Your task to perform on an android device: Search for the best rated wireless headphones on Amazon. Image 0: 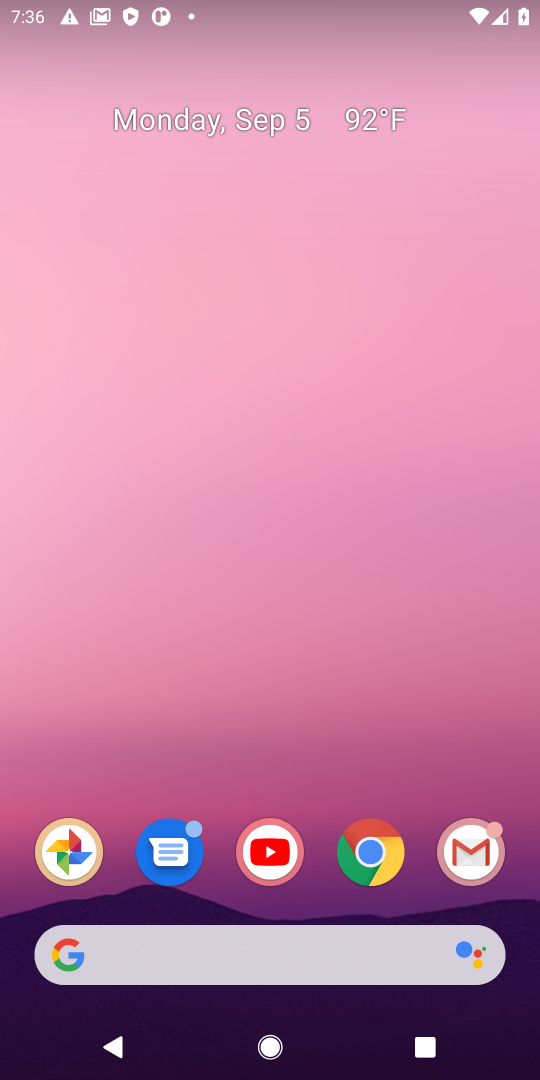
Step 0: click (471, 377)
Your task to perform on an android device: Search for the best rated wireless headphones on Amazon. Image 1: 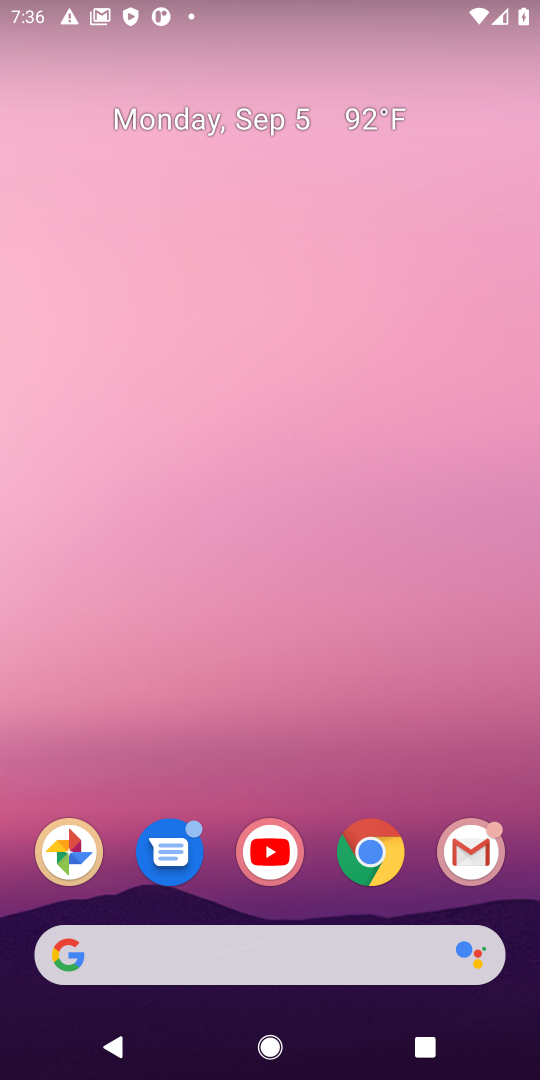
Step 1: click (386, 838)
Your task to perform on an android device: Search for the best rated wireless headphones on Amazon. Image 2: 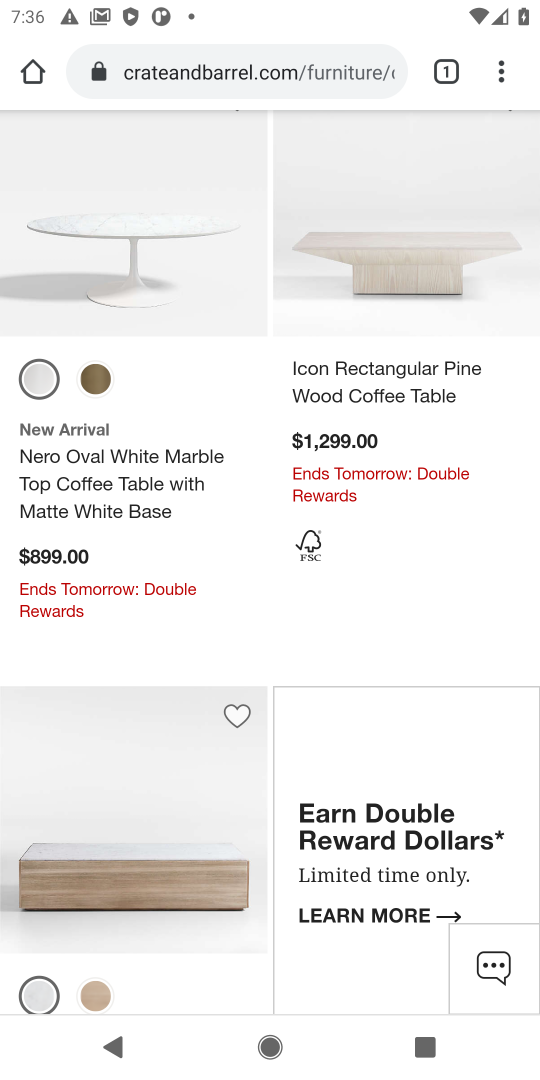
Step 2: click (314, 58)
Your task to perform on an android device: Search for the best rated wireless headphones on Amazon. Image 3: 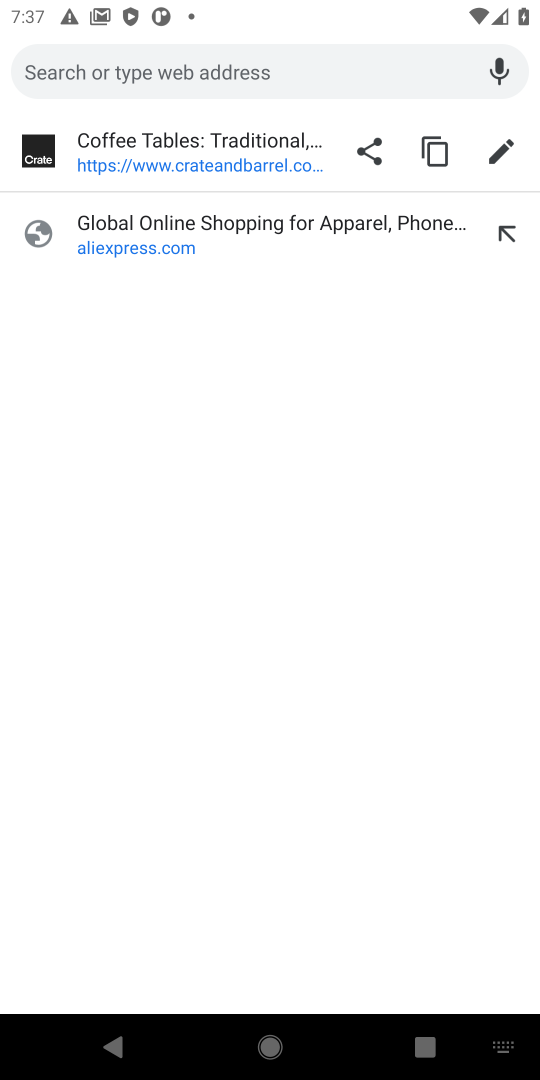
Step 3: type "amazon"
Your task to perform on an android device: Search for the best rated wireless headphones on Amazon. Image 4: 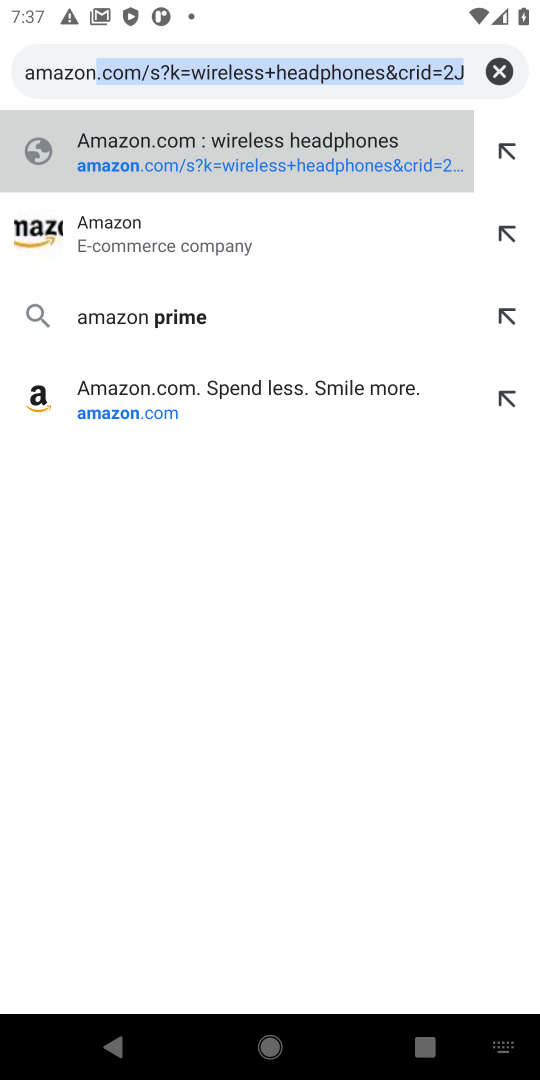
Step 4: press enter
Your task to perform on an android device: Search for the best rated wireless headphones on Amazon. Image 5: 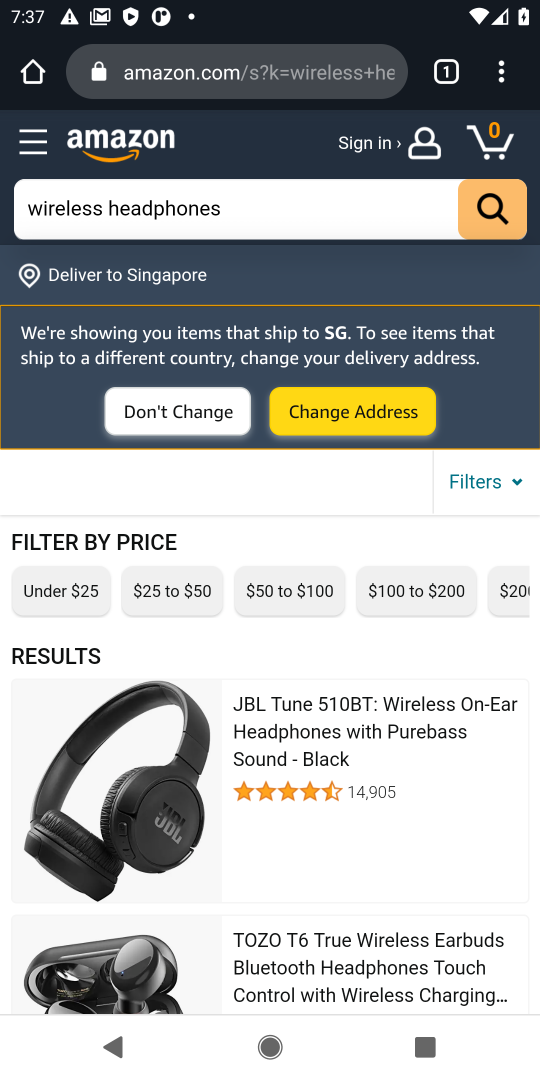
Step 5: click (481, 494)
Your task to perform on an android device: Search for the best rated wireless headphones on Amazon. Image 6: 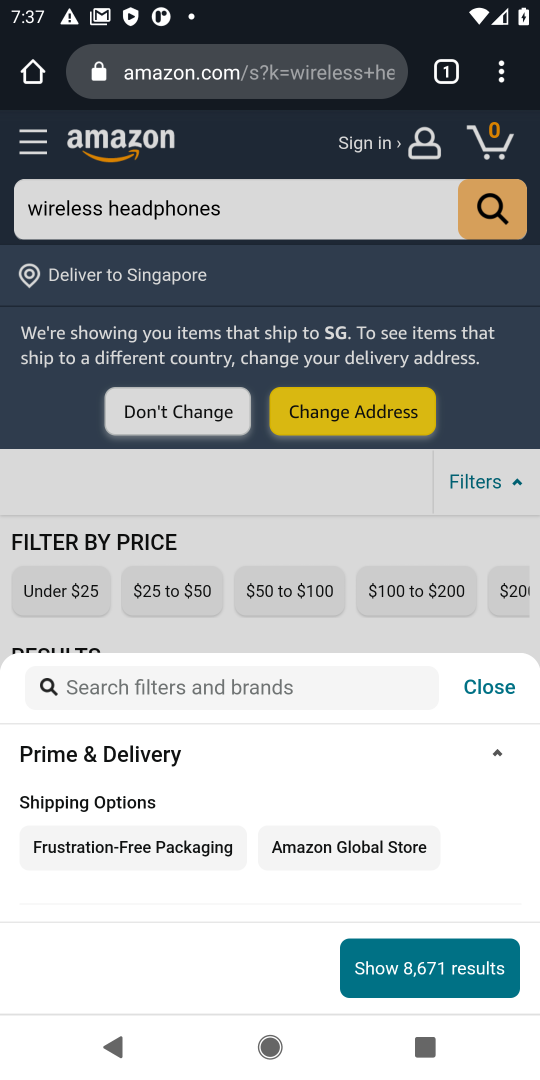
Step 6: drag from (369, 786) to (387, 591)
Your task to perform on an android device: Search for the best rated wireless headphones on Amazon. Image 7: 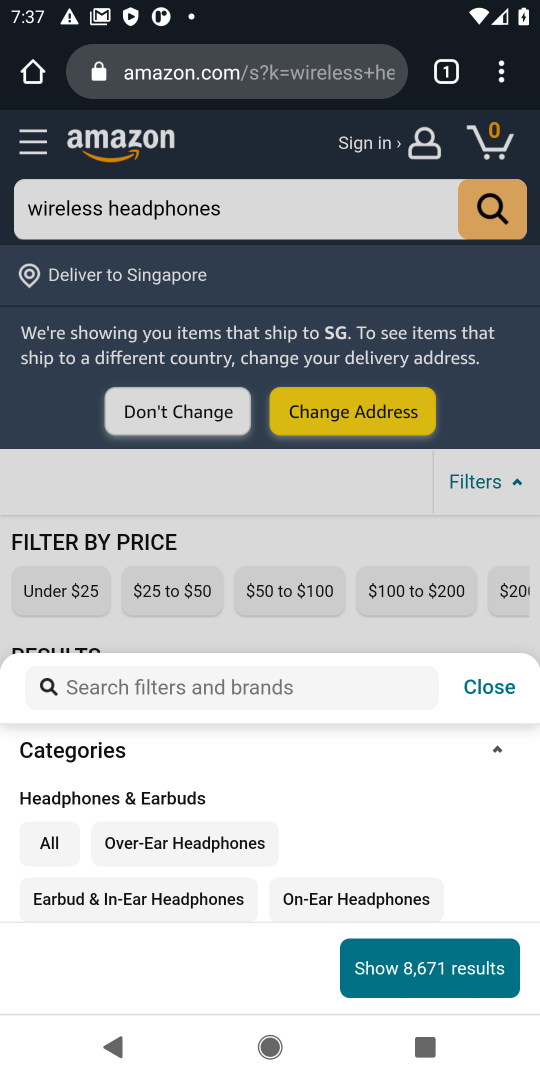
Step 7: drag from (387, 897) to (409, 649)
Your task to perform on an android device: Search for the best rated wireless headphones on Amazon. Image 8: 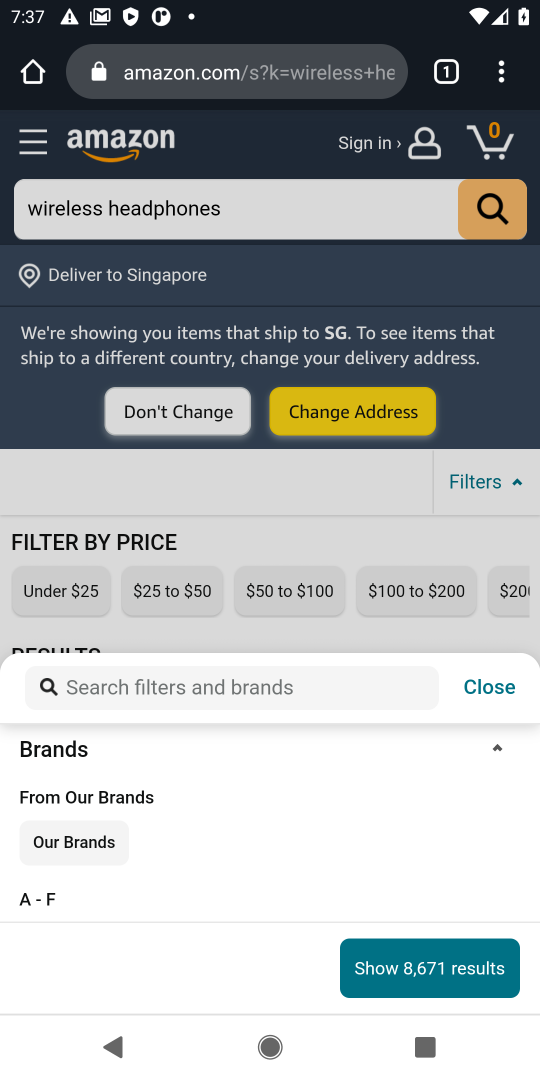
Step 8: drag from (379, 839) to (386, 671)
Your task to perform on an android device: Search for the best rated wireless headphones on Amazon. Image 9: 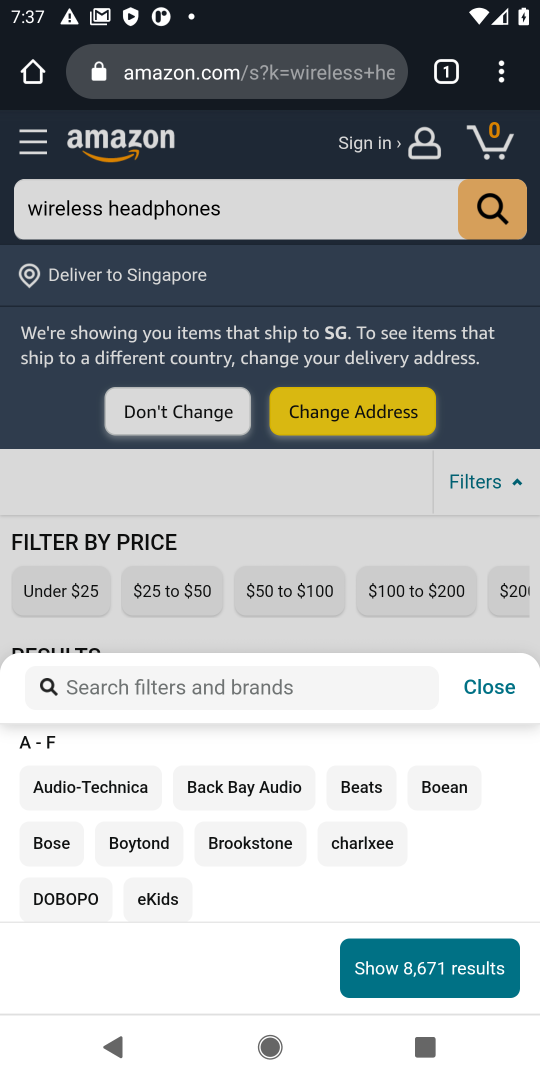
Step 9: drag from (401, 877) to (403, 663)
Your task to perform on an android device: Search for the best rated wireless headphones on Amazon. Image 10: 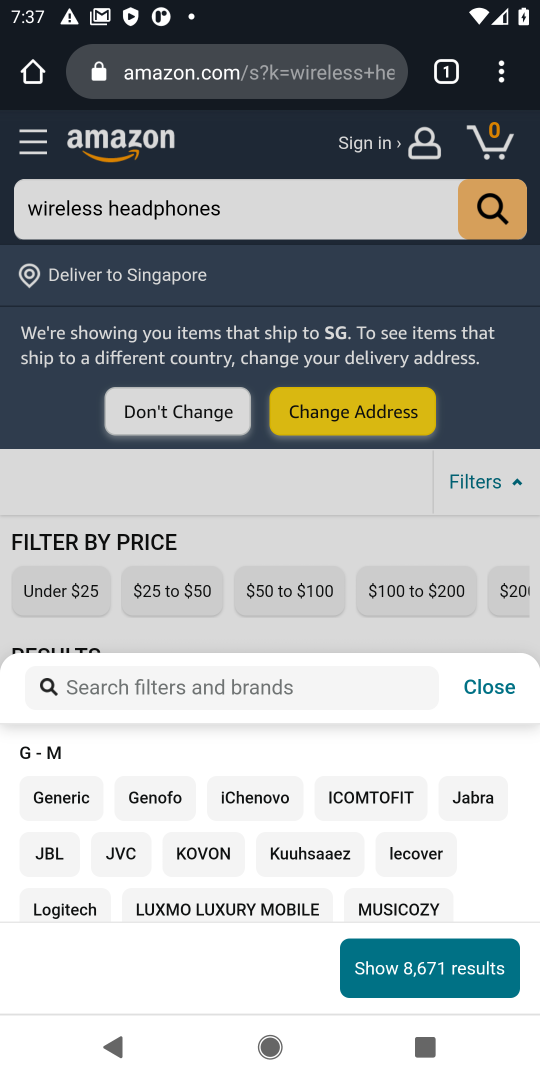
Step 10: drag from (441, 910) to (417, 756)
Your task to perform on an android device: Search for the best rated wireless headphones on Amazon. Image 11: 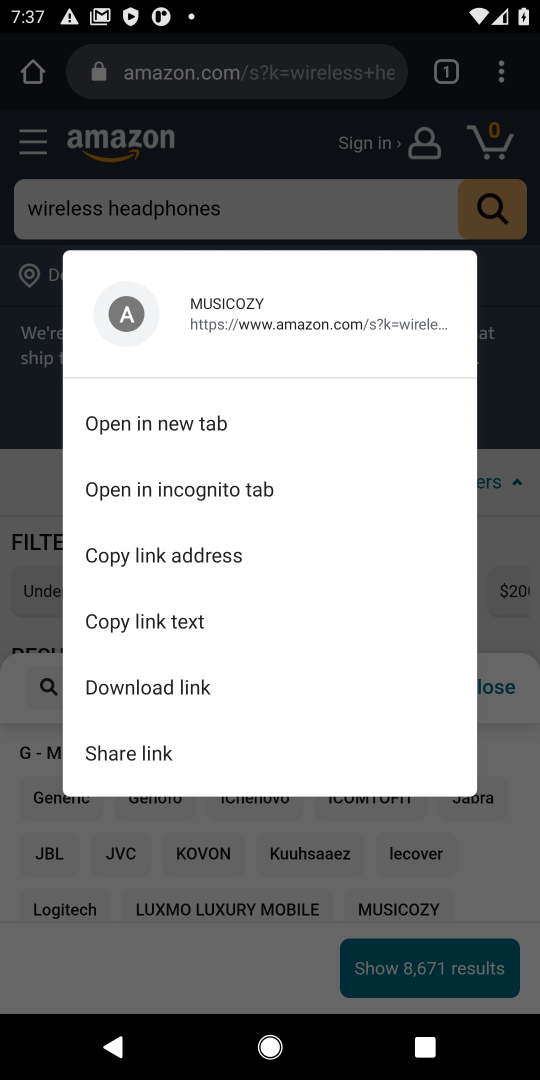
Step 11: click (379, 907)
Your task to perform on an android device: Search for the best rated wireless headphones on Amazon. Image 12: 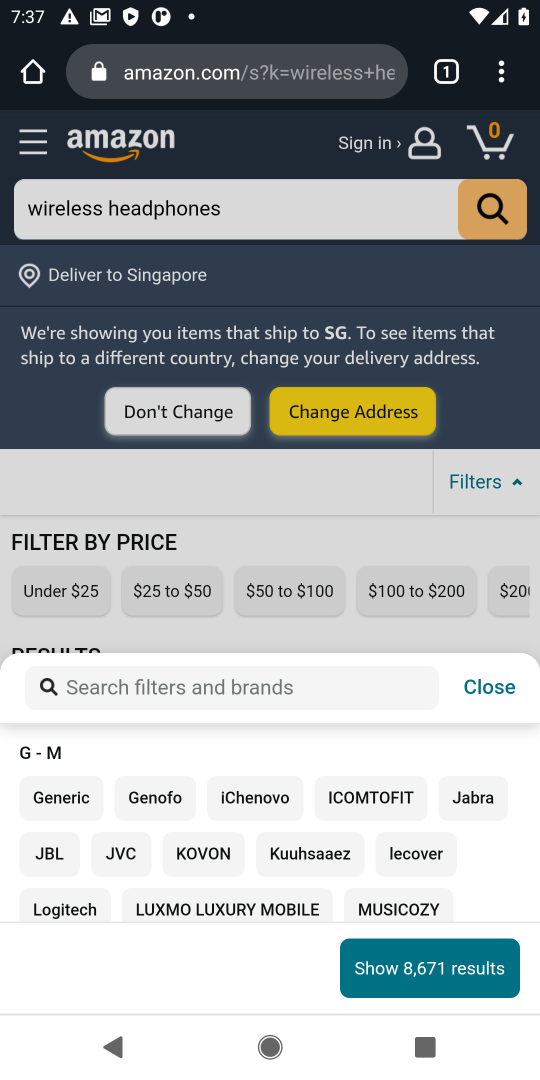
Step 12: drag from (465, 878) to (465, 658)
Your task to perform on an android device: Search for the best rated wireless headphones on Amazon. Image 13: 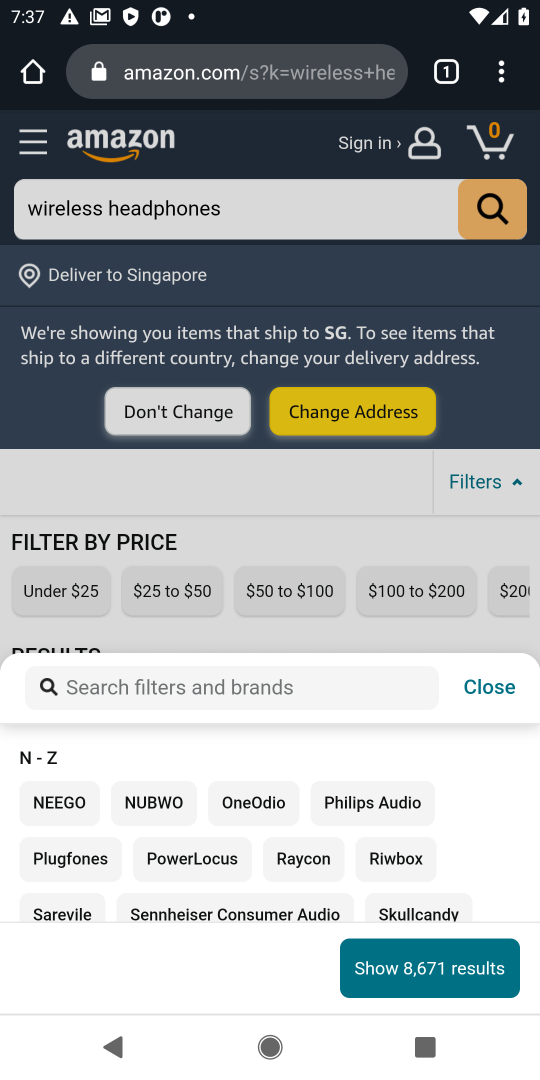
Step 13: drag from (380, 844) to (388, 678)
Your task to perform on an android device: Search for the best rated wireless headphones on Amazon. Image 14: 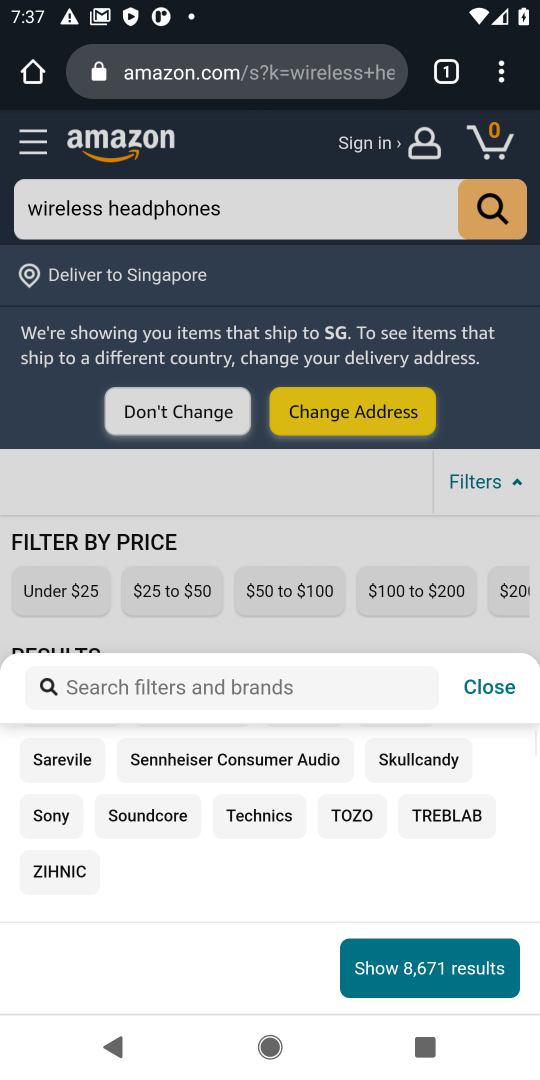
Step 14: drag from (319, 813) to (339, 733)
Your task to perform on an android device: Search for the best rated wireless headphones on Amazon. Image 15: 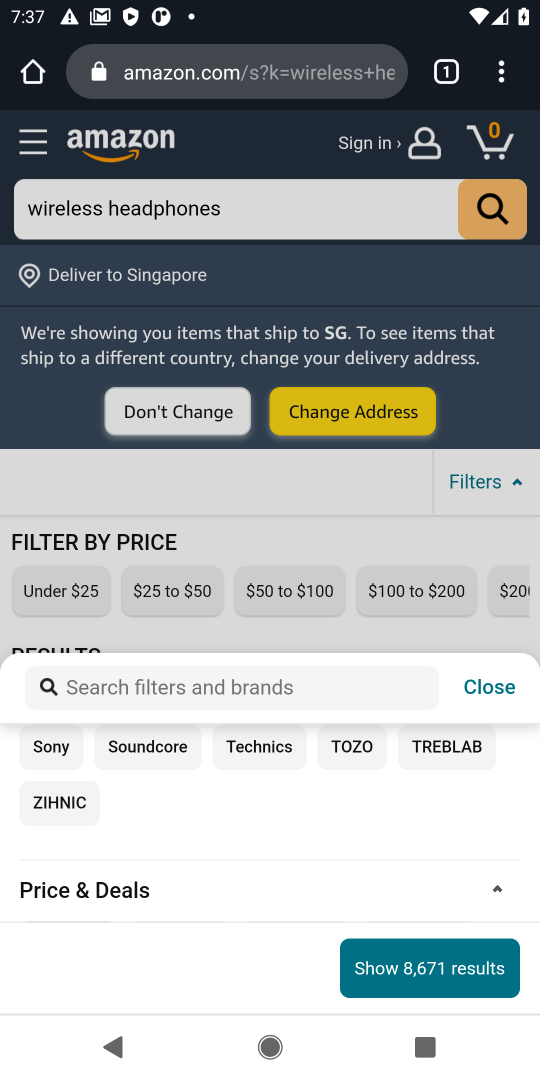
Step 15: drag from (316, 886) to (336, 735)
Your task to perform on an android device: Search for the best rated wireless headphones on Amazon. Image 16: 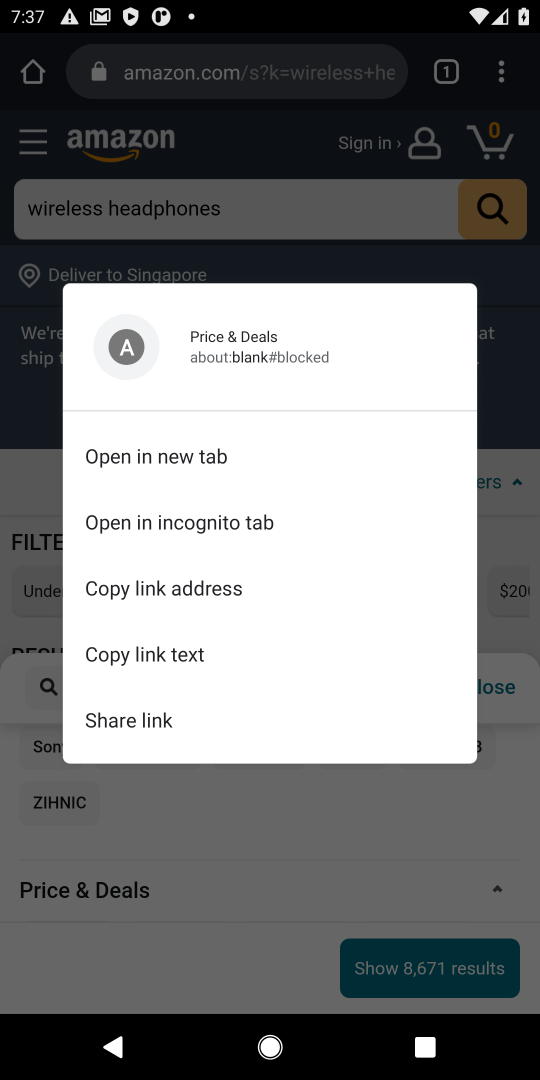
Step 16: click (327, 855)
Your task to perform on an android device: Search for the best rated wireless headphones on Amazon. Image 17: 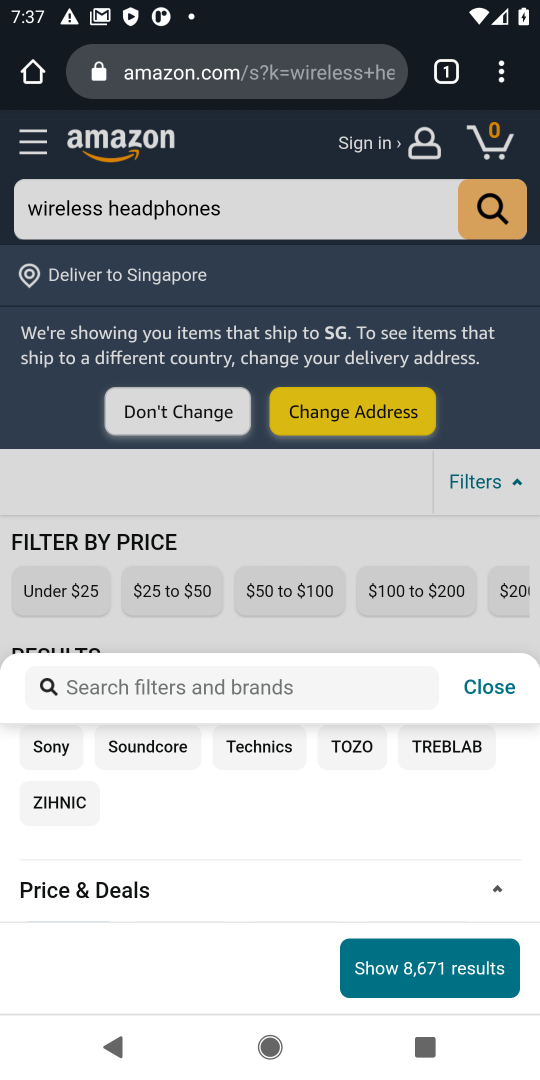
Step 17: drag from (325, 896) to (336, 729)
Your task to perform on an android device: Search for the best rated wireless headphones on Amazon. Image 18: 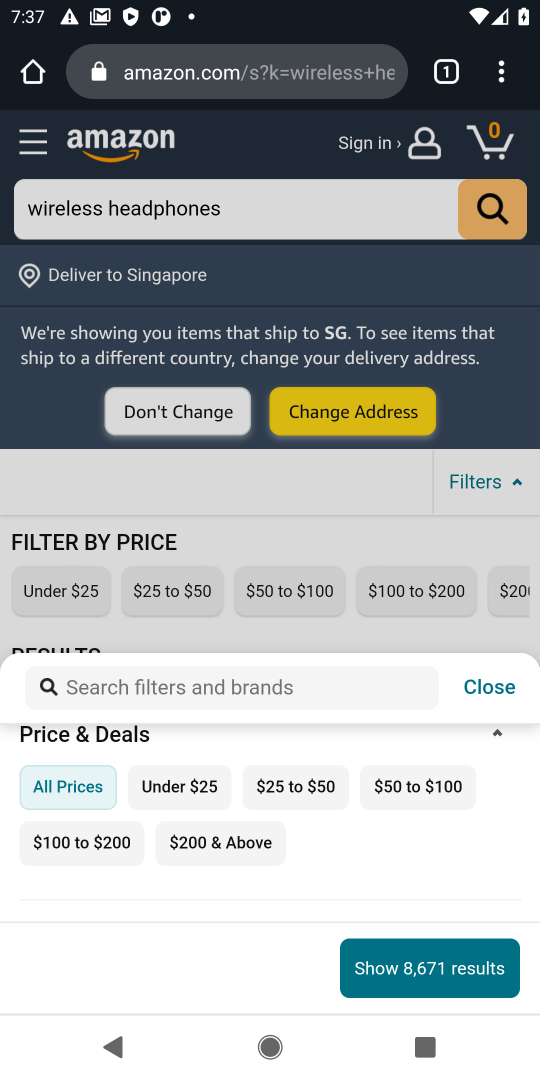
Step 18: drag from (328, 887) to (350, 754)
Your task to perform on an android device: Search for the best rated wireless headphones on Amazon. Image 19: 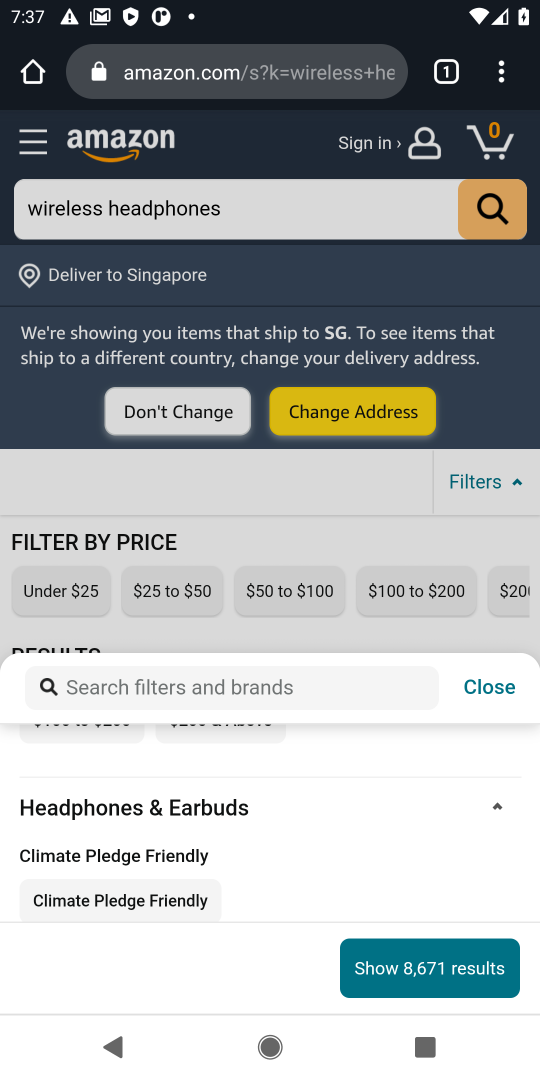
Step 19: drag from (333, 828) to (347, 775)
Your task to perform on an android device: Search for the best rated wireless headphones on Amazon. Image 20: 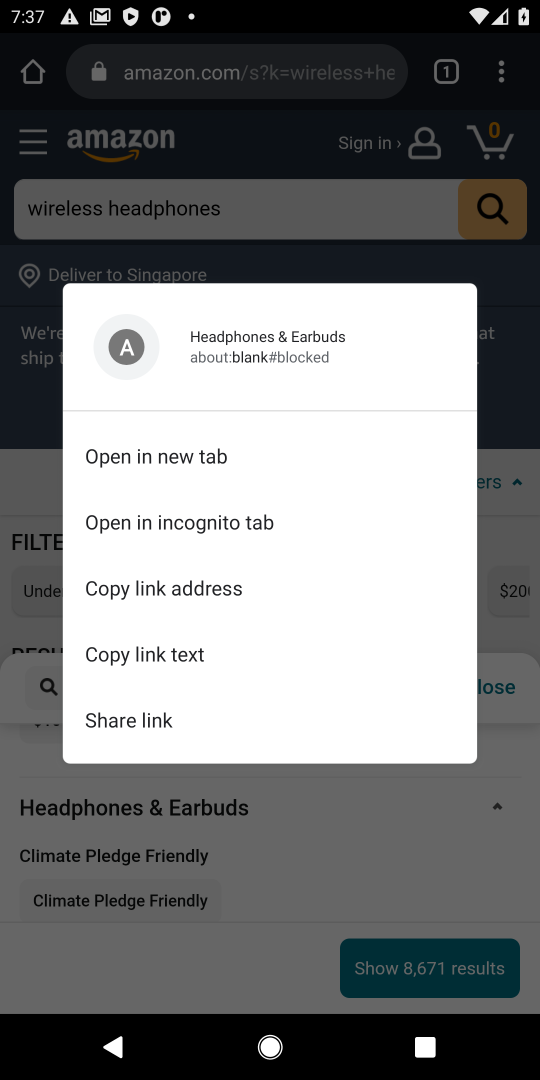
Step 20: click (361, 840)
Your task to perform on an android device: Search for the best rated wireless headphones on Amazon. Image 21: 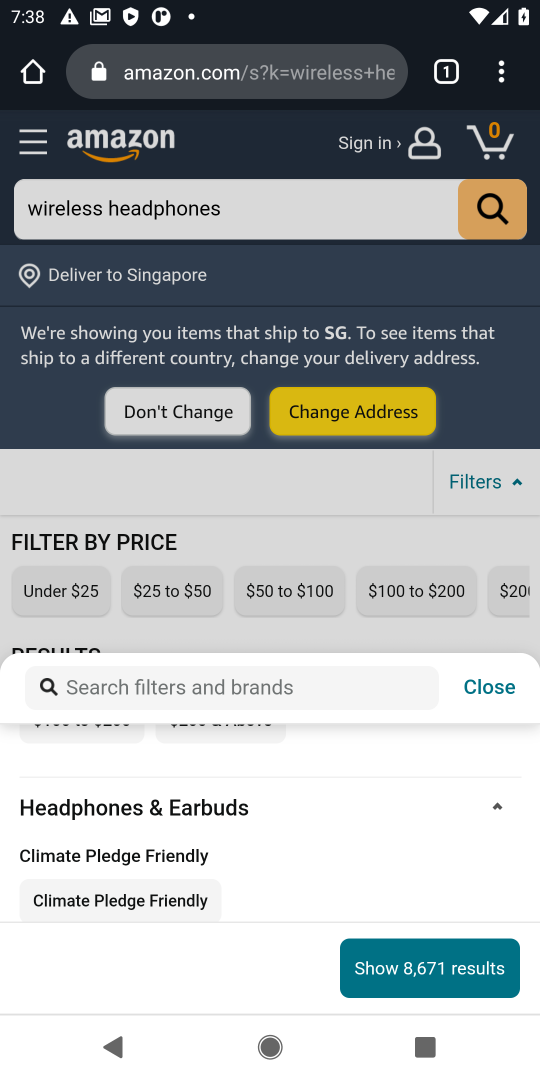
Step 21: click (348, 923)
Your task to perform on an android device: Search for the best rated wireless headphones on Amazon. Image 22: 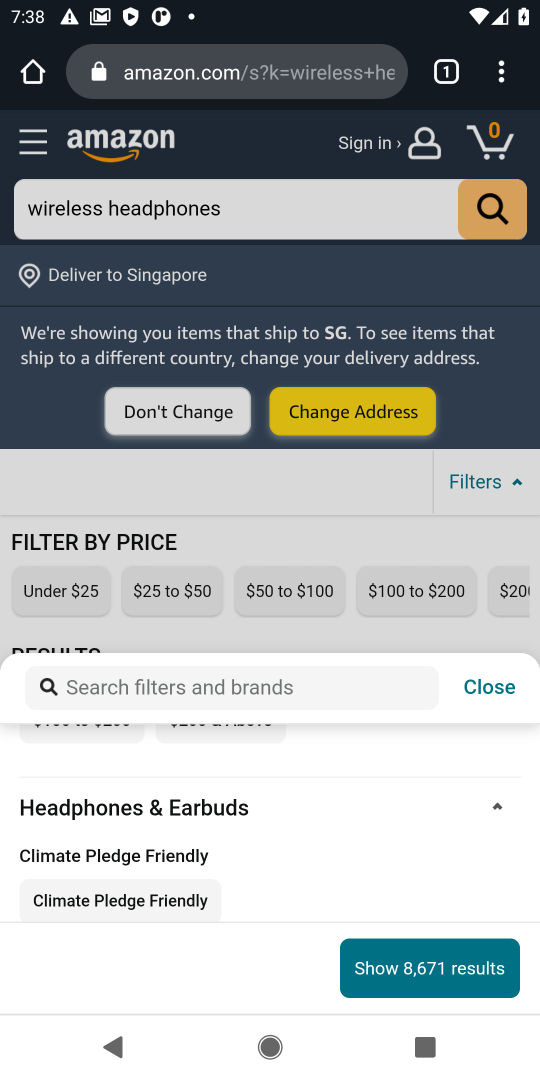
Step 22: drag from (338, 933) to (361, 769)
Your task to perform on an android device: Search for the best rated wireless headphones on Amazon. Image 23: 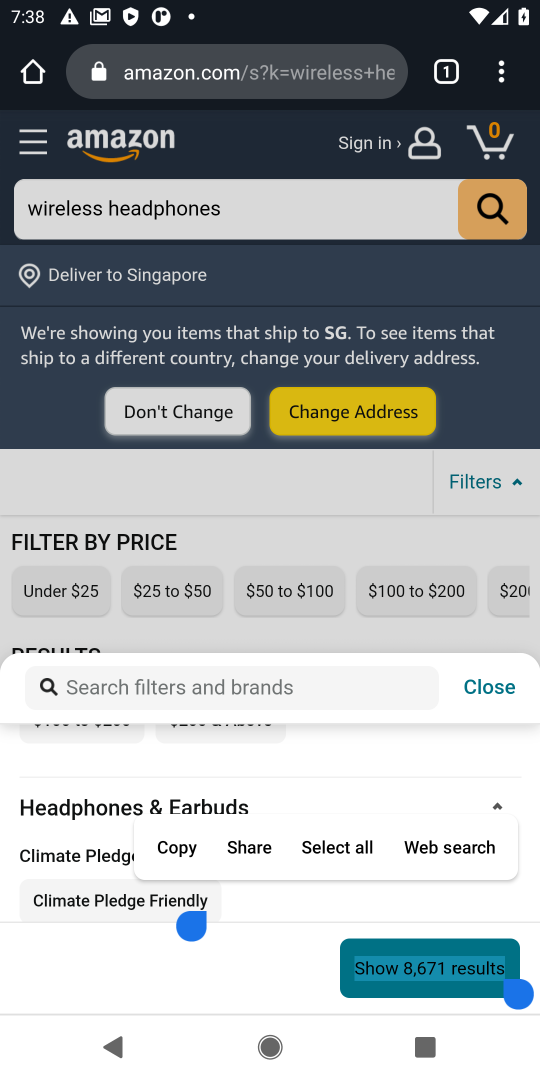
Step 23: click (339, 902)
Your task to perform on an android device: Search for the best rated wireless headphones on Amazon. Image 24: 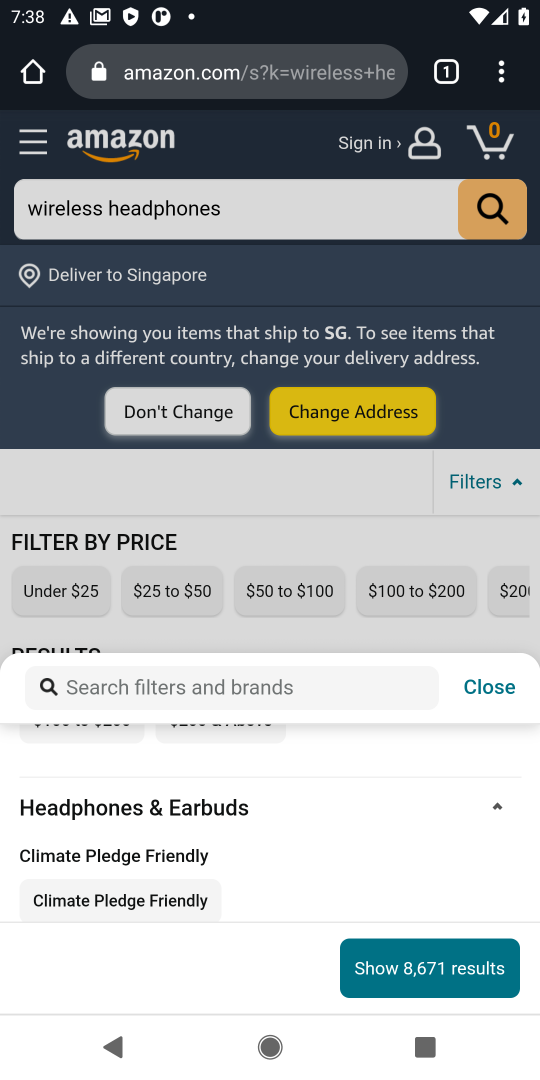
Step 24: drag from (339, 902) to (369, 702)
Your task to perform on an android device: Search for the best rated wireless headphones on Amazon. Image 25: 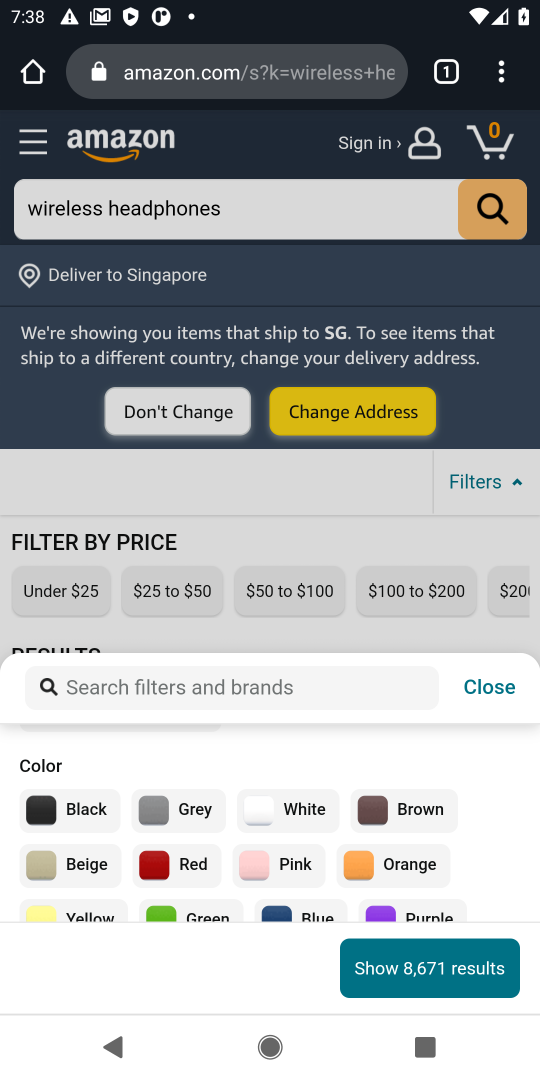
Step 25: drag from (490, 862) to (503, 676)
Your task to perform on an android device: Search for the best rated wireless headphones on Amazon. Image 26: 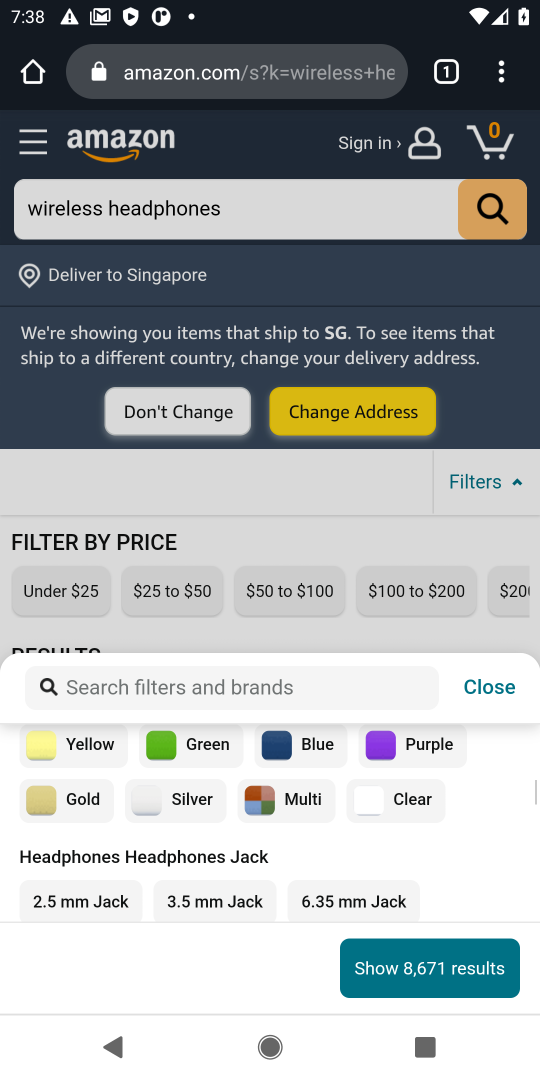
Step 26: drag from (485, 864) to (490, 728)
Your task to perform on an android device: Search for the best rated wireless headphones on Amazon. Image 27: 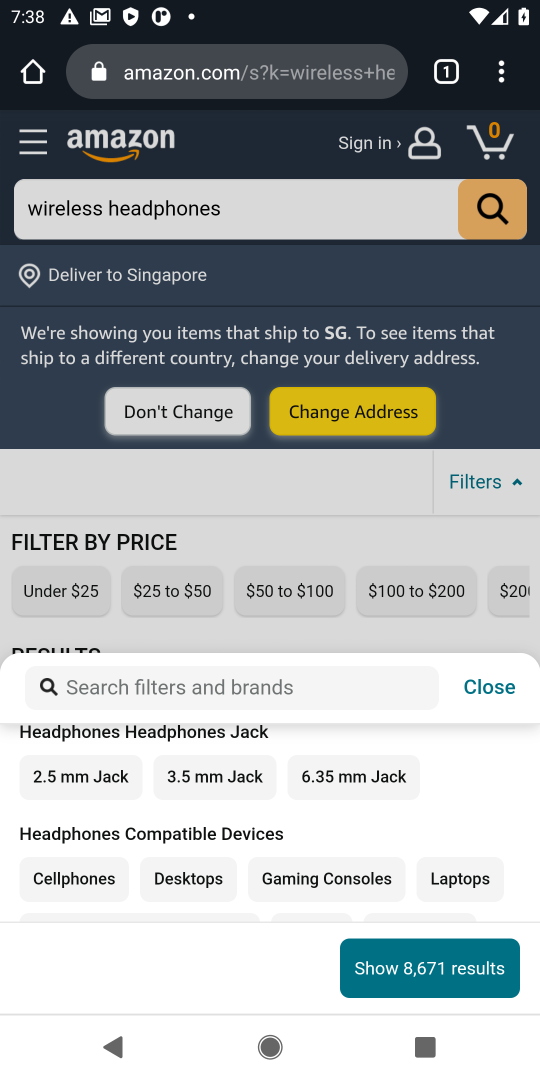
Step 27: drag from (462, 813) to (480, 684)
Your task to perform on an android device: Search for the best rated wireless headphones on Amazon. Image 28: 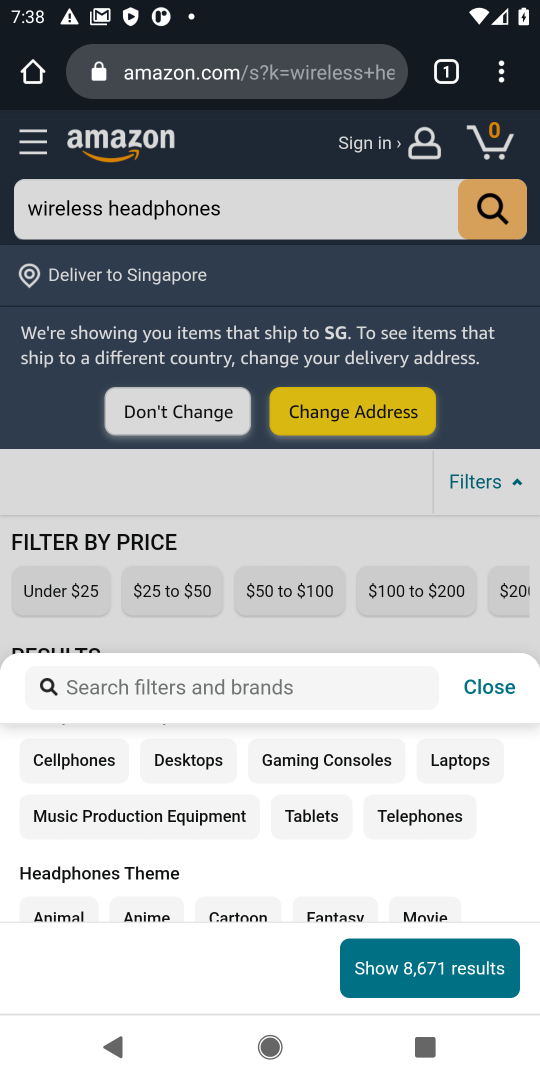
Step 28: drag from (401, 866) to (427, 748)
Your task to perform on an android device: Search for the best rated wireless headphones on Amazon. Image 29: 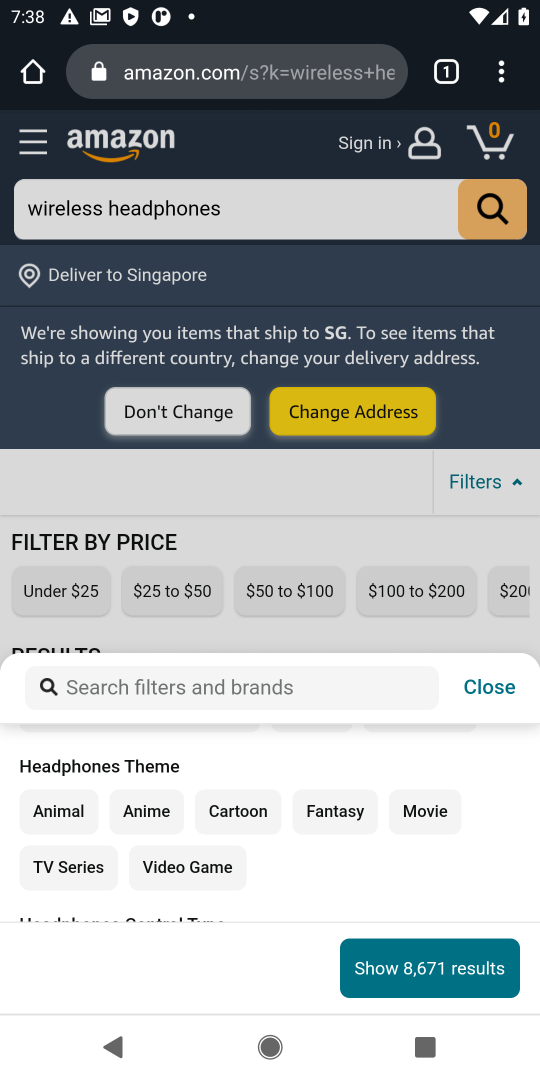
Step 29: drag from (349, 867) to (369, 750)
Your task to perform on an android device: Search for the best rated wireless headphones on Amazon. Image 30: 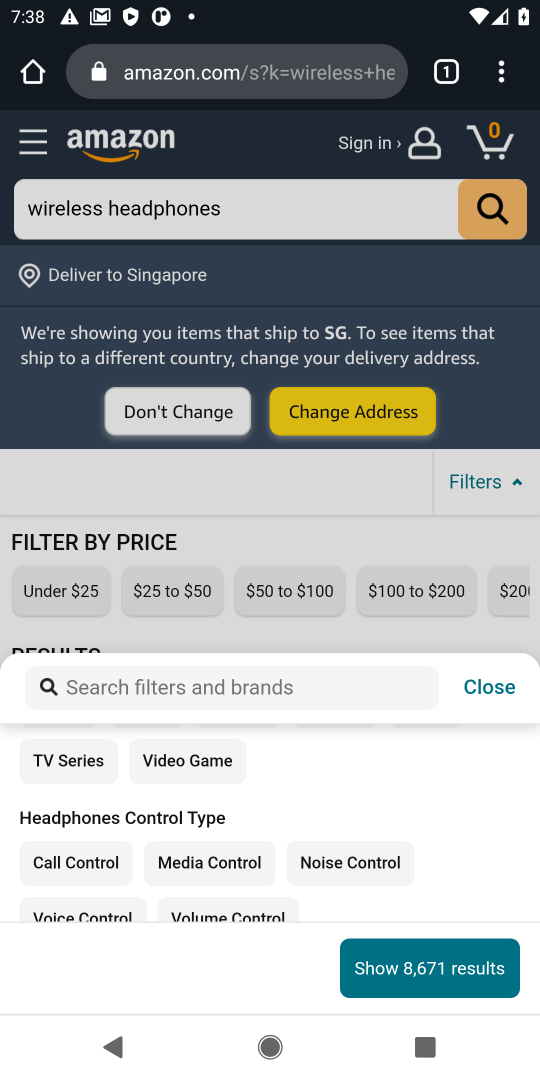
Step 30: drag from (323, 843) to (323, 692)
Your task to perform on an android device: Search for the best rated wireless headphones on Amazon. Image 31: 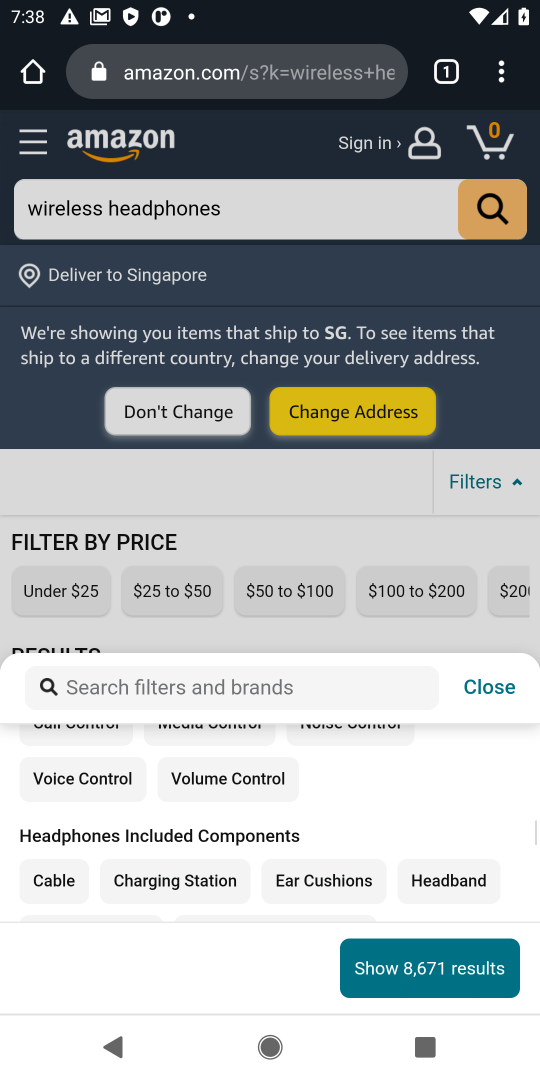
Step 31: drag from (348, 872) to (383, 729)
Your task to perform on an android device: Search for the best rated wireless headphones on Amazon. Image 32: 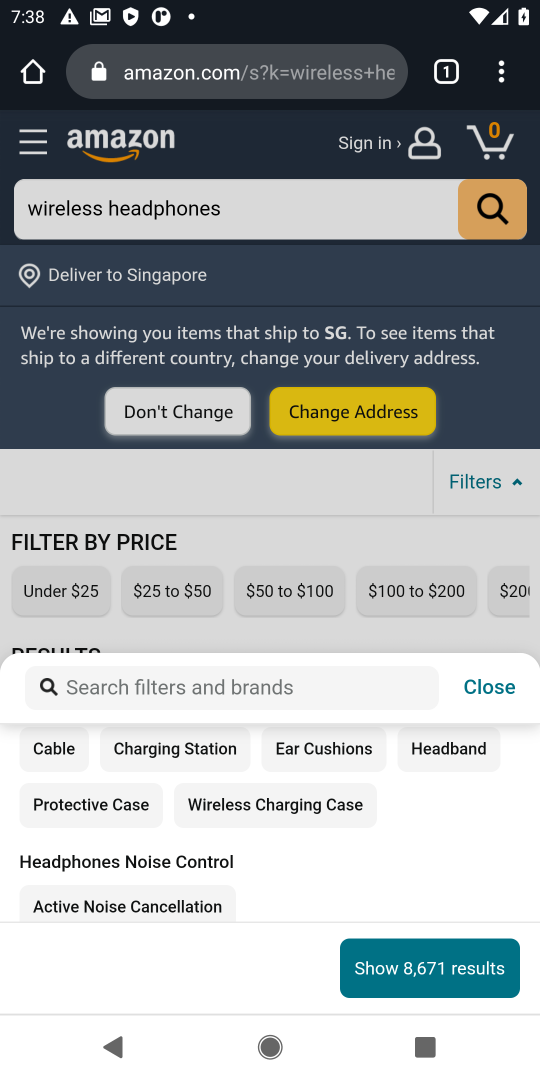
Step 32: drag from (381, 870) to (390, 727)
Your task to perform on an android device: Search for the best rated wireless headphones on Amazon. Image 33: 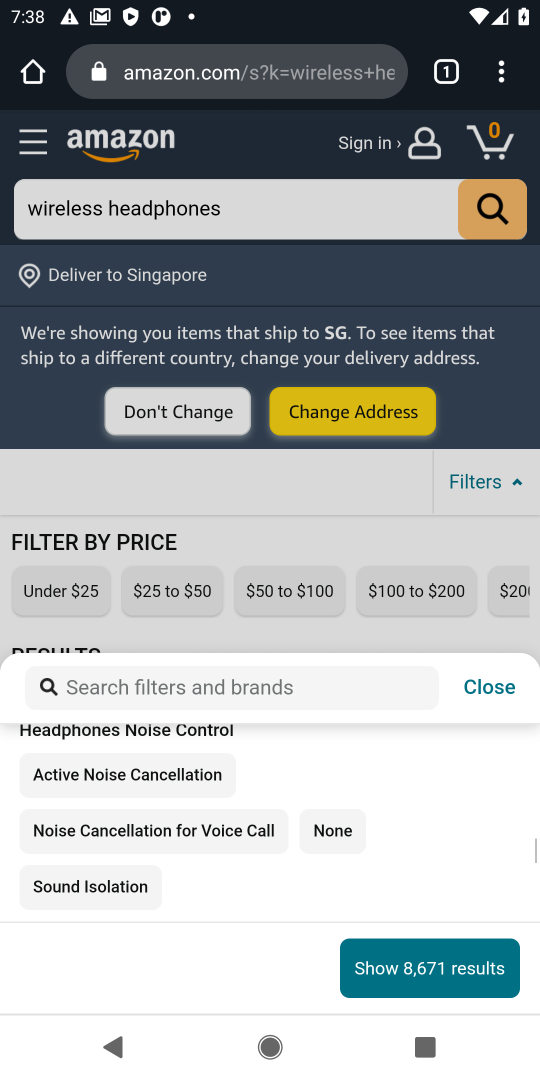
Step 33: click (387, 762)
Your task to perform on an android device: Search for the best rated wireless headphones on Amazon. Image 34: 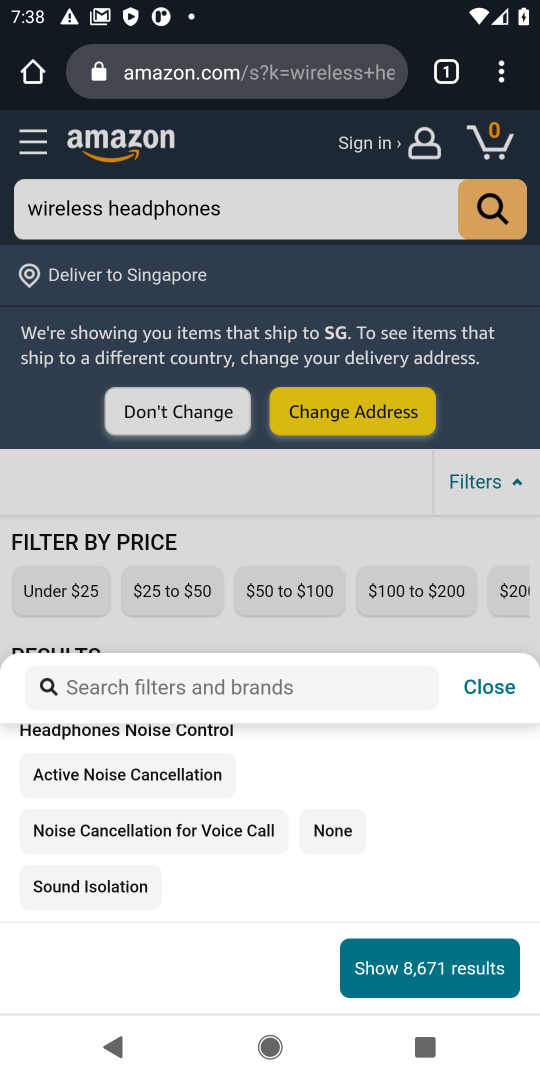
Step 34: drag from (403, 879) to (403, 759)
Your task to perform on an android device: Search for the best rated wireless headphones on Amazon. Image 35: 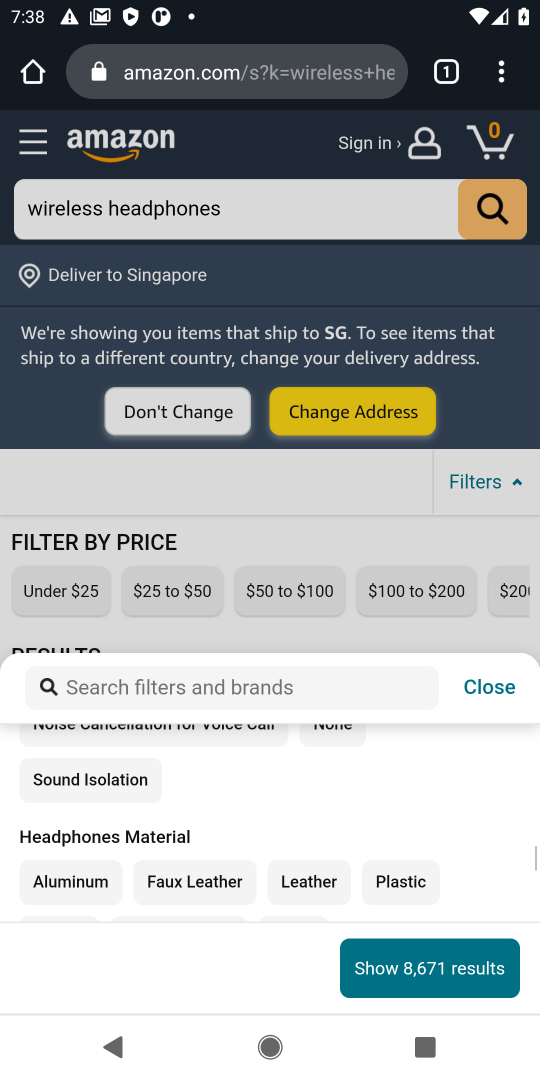
Step 35: drag from (392, 825) to (399, 722)
Your task to perform on an android device: Search for the best rated wireless headphones on Amazon. Image 36: 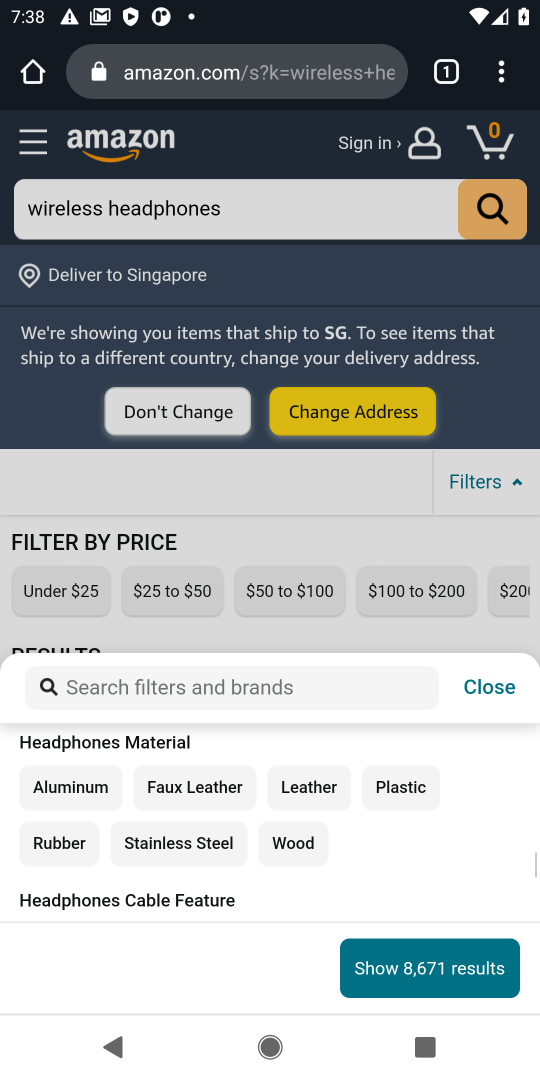
Step 36: drag from (409, 895) to (414, 788)
Your task to perform on an android device: Search for the best rated wireless headphones on Amazon. Image 37: 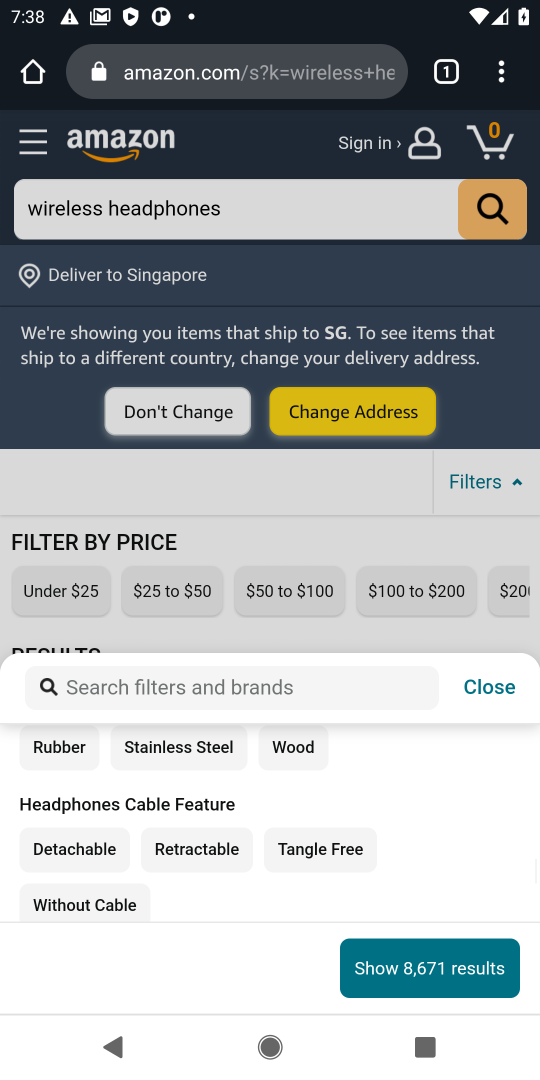
Step 37: drag from (408, 884) to (417, 725)
Your task to perform on an android device: Search for the best rated wireless headphones on Amazon. Image 38: 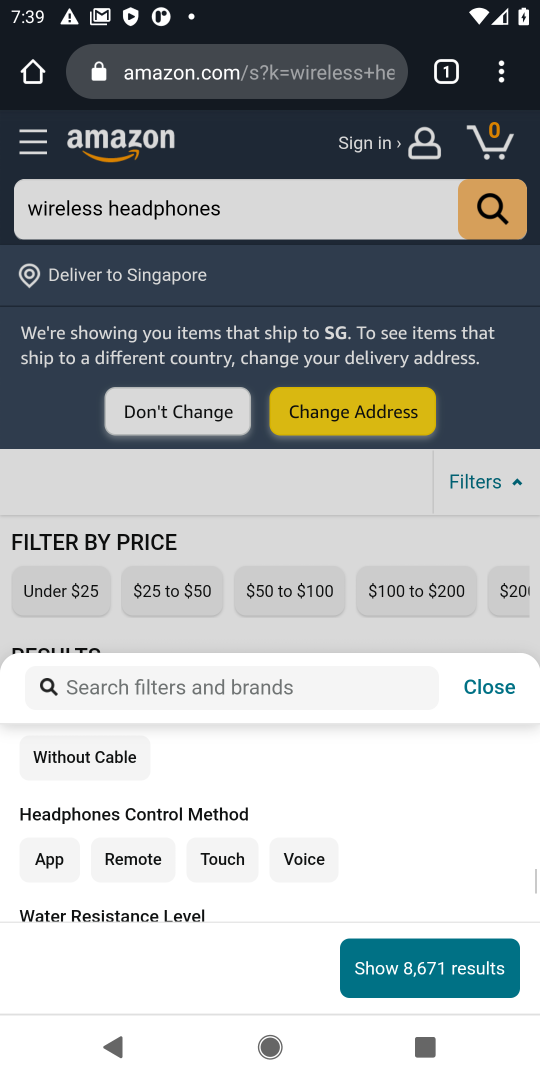
Step 38: drag from (443, 842) to (443, 755)
Your task to perform on an android device: Search for the best rated wireless headphones on Amazon. Image 39: 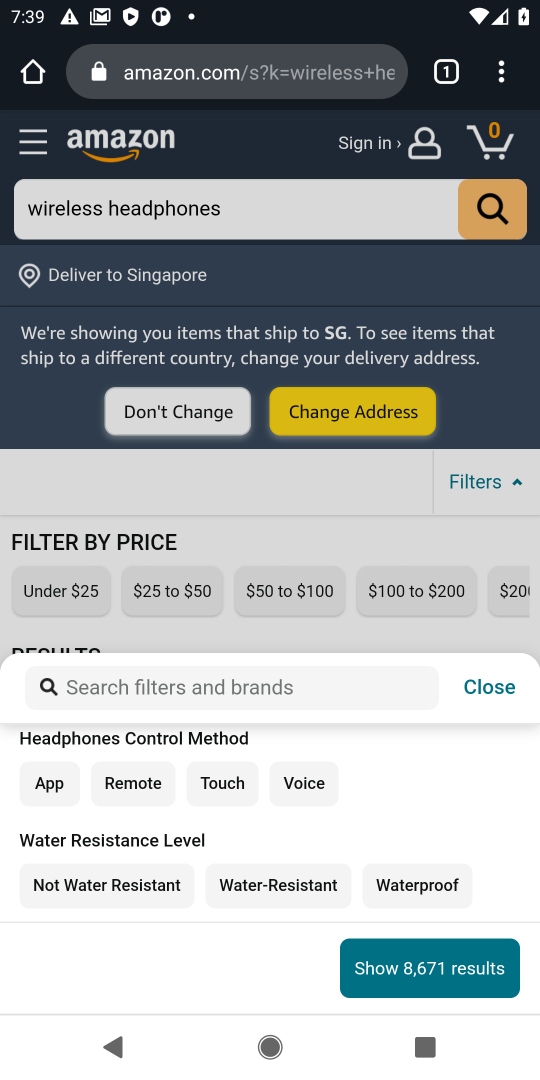
Step 39: drag from (400, 879) to (400, 742)
Your task to perform on an android device: Search for the best rated wireless headphones on Amazon. Image 40: 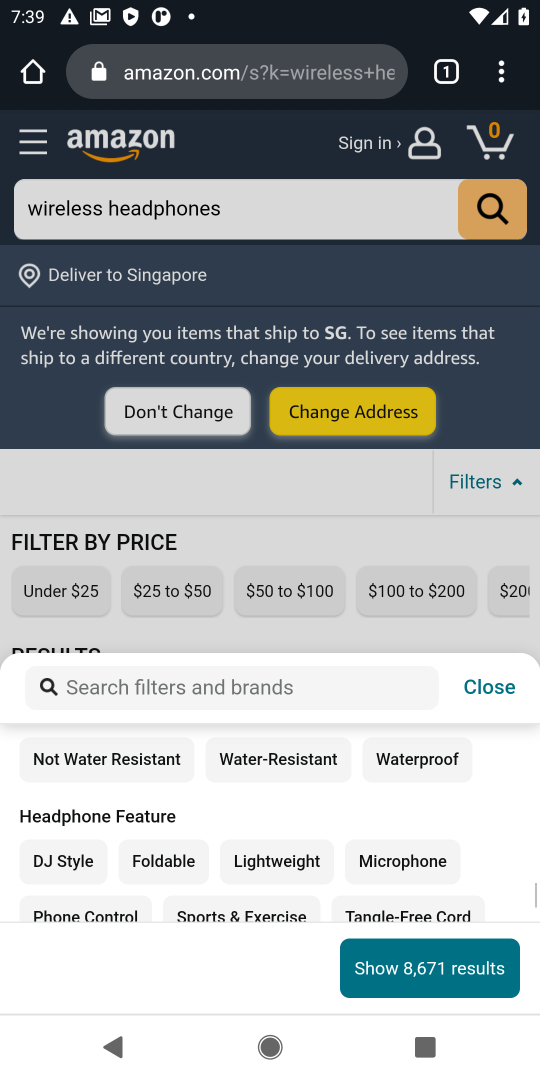
Step 40: drag from (402, 876) to (402, 745)
Your task to perform on an android device: Search for the best rated wireless headphones on Amazon. Image 41: 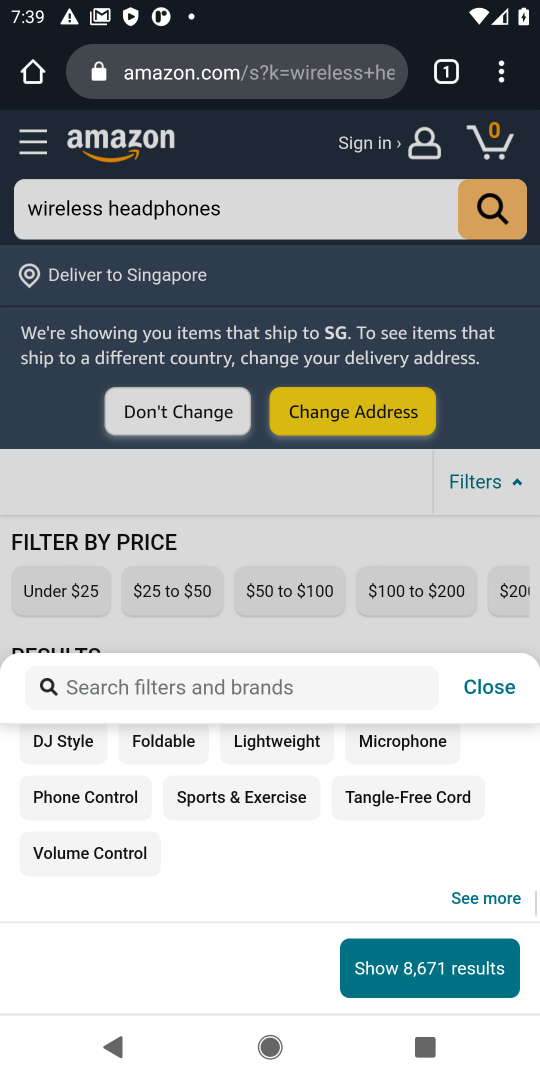
Step 41: drag from (394, 886) to (396, 731)
Your task to perform on an android device: Search for the best rated wireless headphones on Amazon. Image 42: 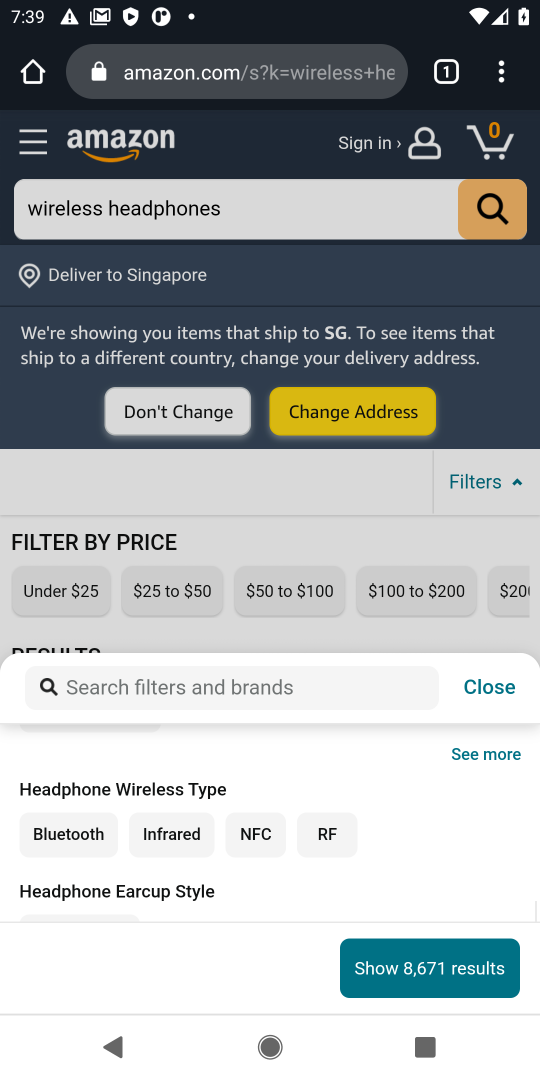
Step 42: drag from (374, 900) to (376, 722)
Your task to perform on an android device: Search for the best rated wireless headphones on Amazon. Image 43: 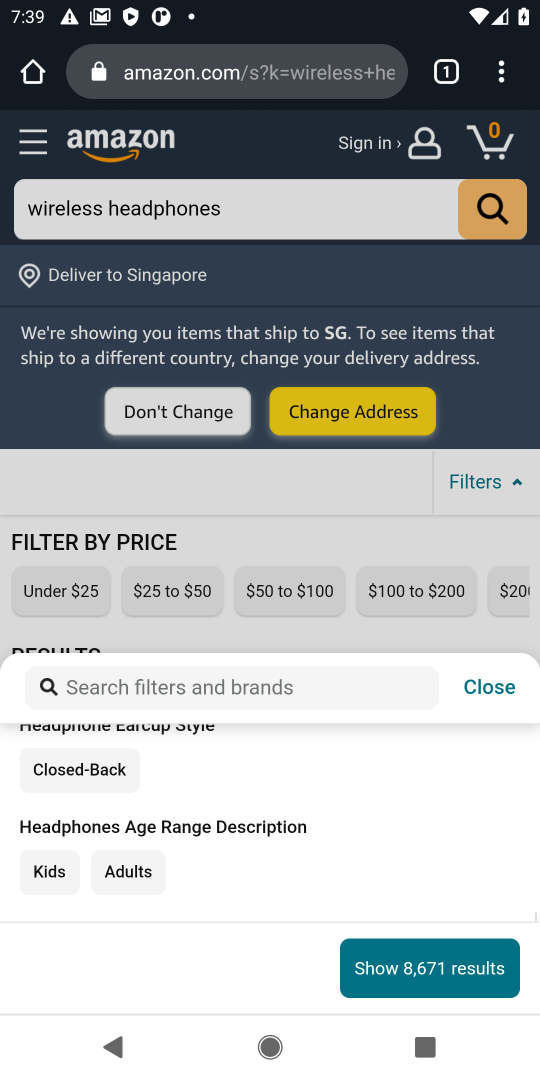
Step 43: click (401, 737)
Your task to perform on an android device: Search for the best rated wireless headphones on Amazon. Image 44: 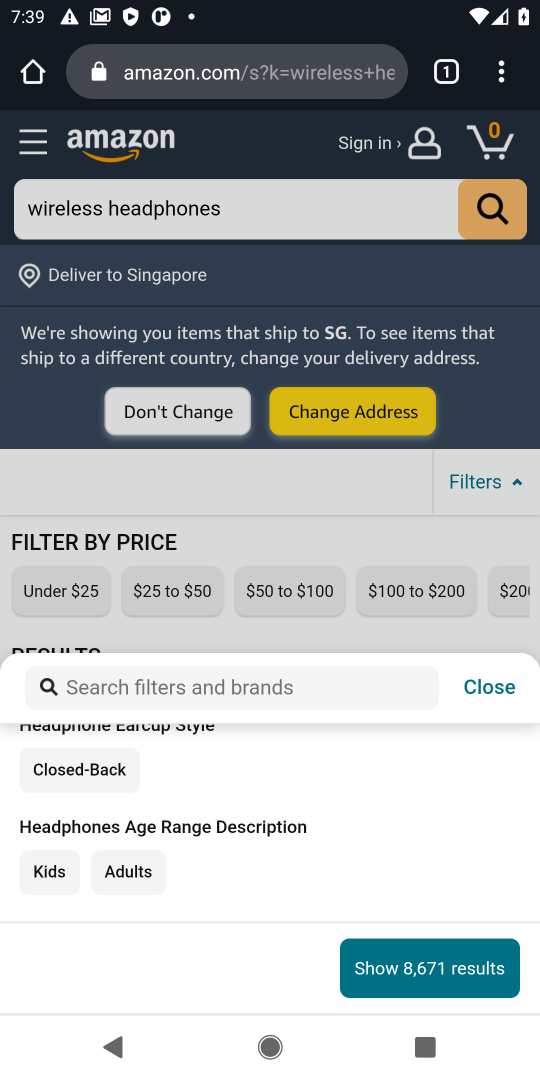
Step 44: click (383, 740)
Your task to perform on an android device: Search for the best rated wireless headphones on Amazon. Image 45: 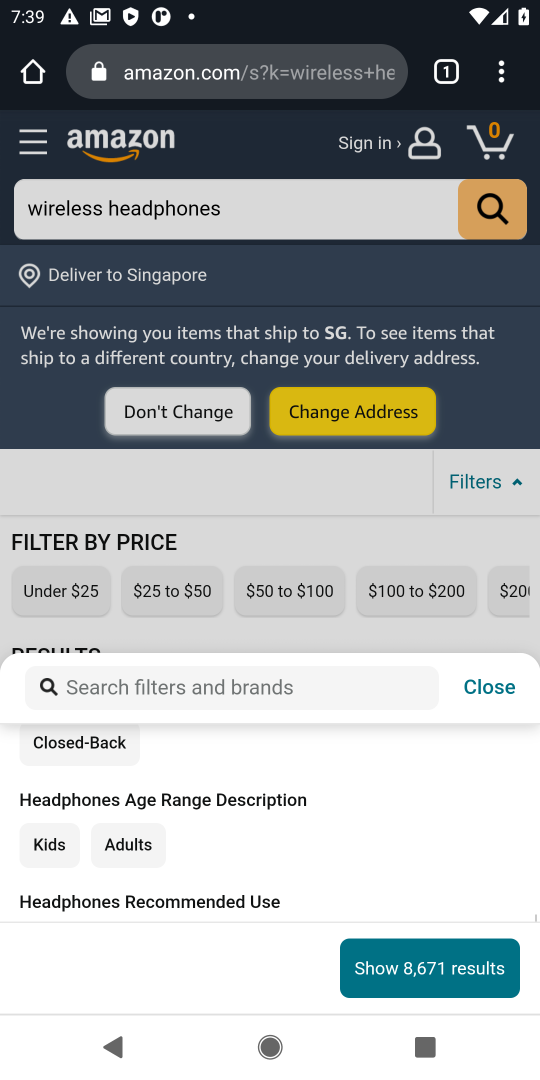
Step 45: drag from (349, 821) to (352, 694)
Your task to perform on an android device: Search for the best rated wireless headphones on Amazon. Image 46: 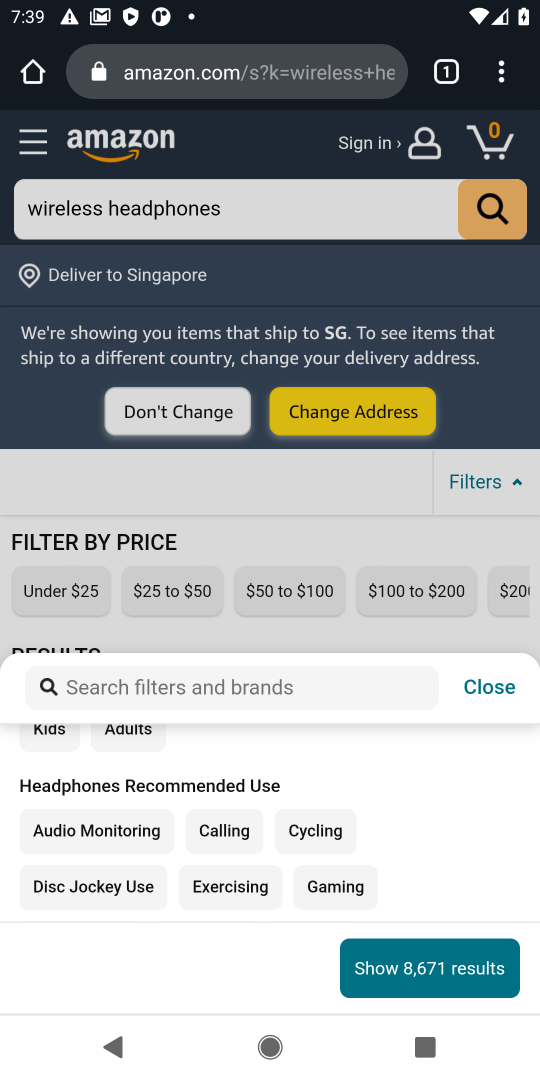
Step 46: drag from (333, 864) to (360, 691)
Your task to perform on an android device: Search for the best rated wireless headphones on Amazon. Image 47: 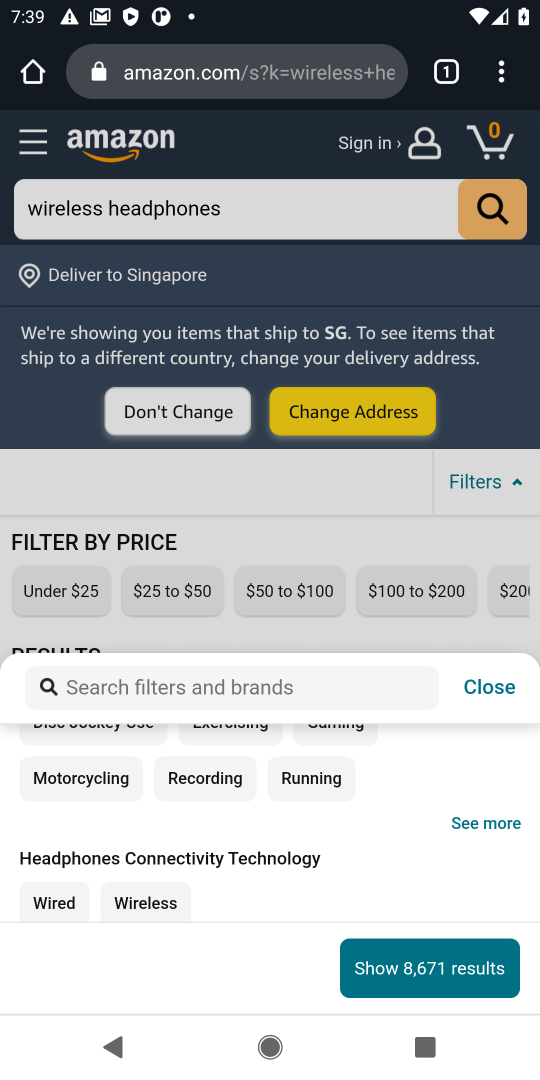
Step 47: drag from (367, 867) to (355, 683)
Your task to perform on an android device: Search for the best rated wireless headphones on Amazon. Image 48: 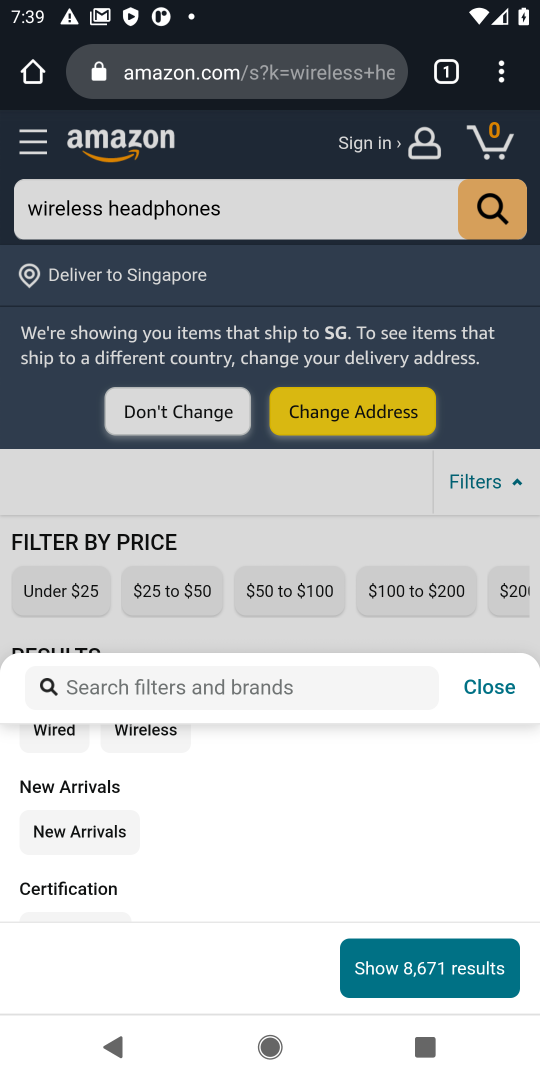
Step 48: drag from (349, 742) to (355, 642)
Your task to perform on an android device: Search for the best rated wireless headphones on Amazon. Image 49: 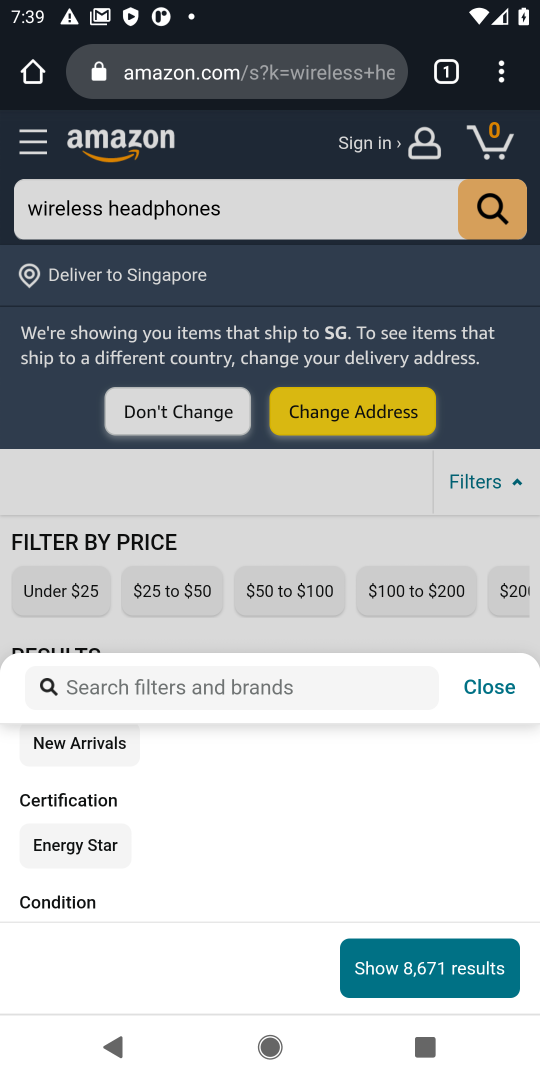
Step 49: drag from (317, 672) to (324, 547)
Your task to perform on an android device: Search for the best rated wireless headphones on Amazon. Image 50: 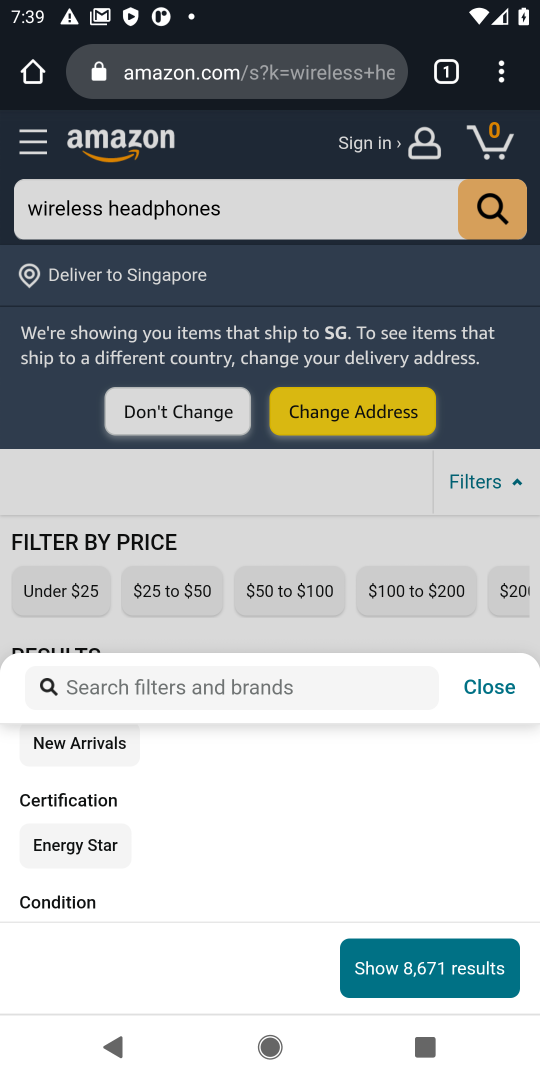
Step 50: drag from (307, 831) to (312, 709)
Your task to perform on an android device: Search for the best rated wireless headphones on Amazon. Image 51: 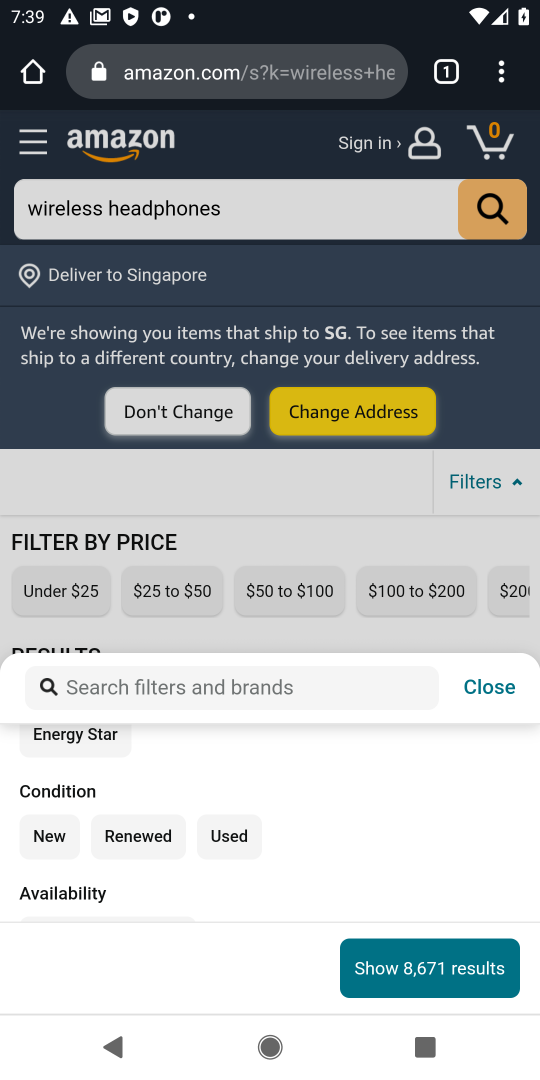
Step 51: drag from (313, 863) to (321, 697)
Your task to perform on an android device: Search for the best rated wireless headphones on Amazon. Image 52: 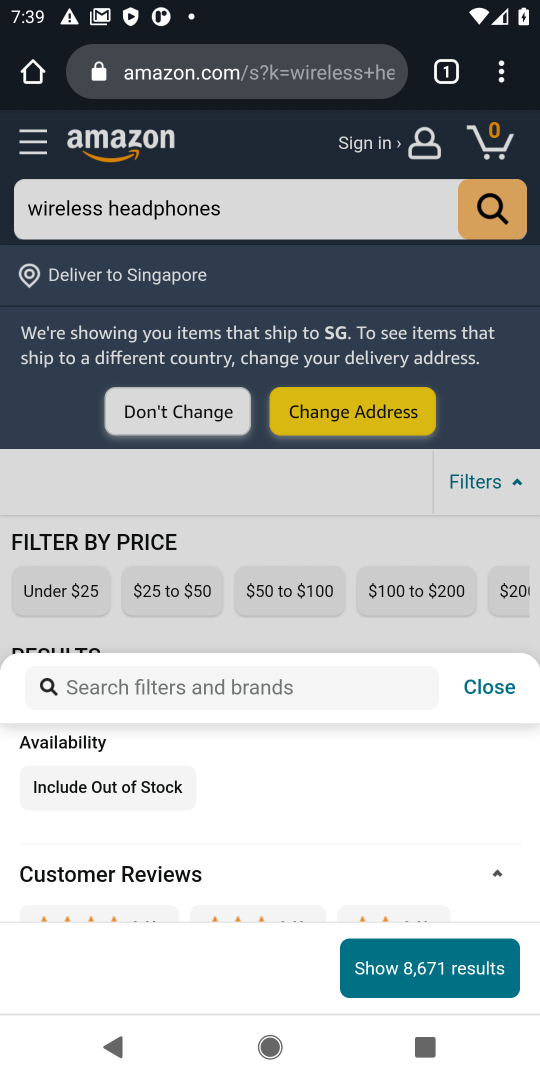
Step 52: drag from (337, 863) to (343, 748)
Your task to perform on an android device: Search for the best rated wireless headphones on Amazon. Image 53: 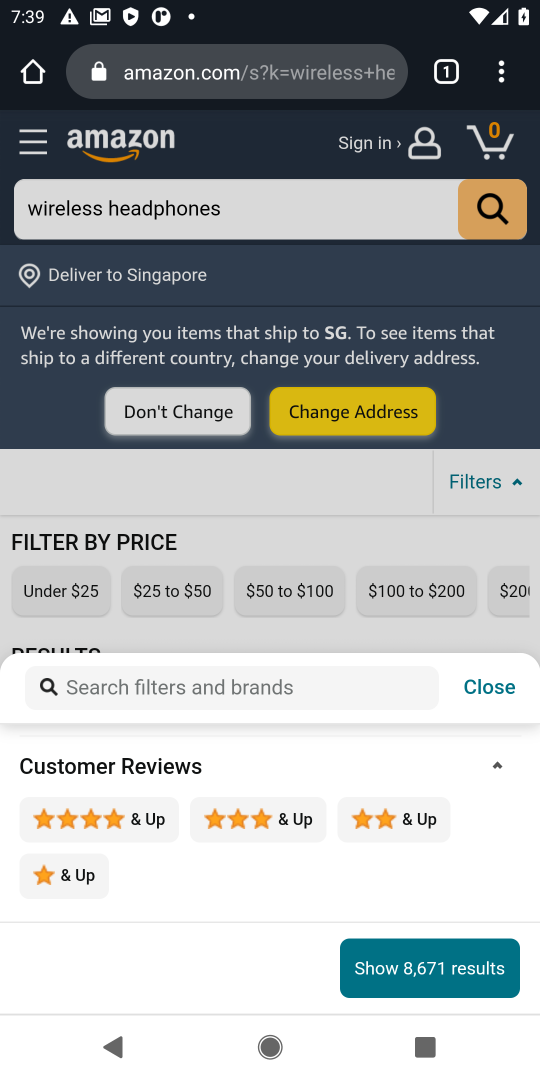
Step 53: click (109, 822)
Your task to perform on an android device: Search for the best rated wireless headphones on Amazon. Image 54: 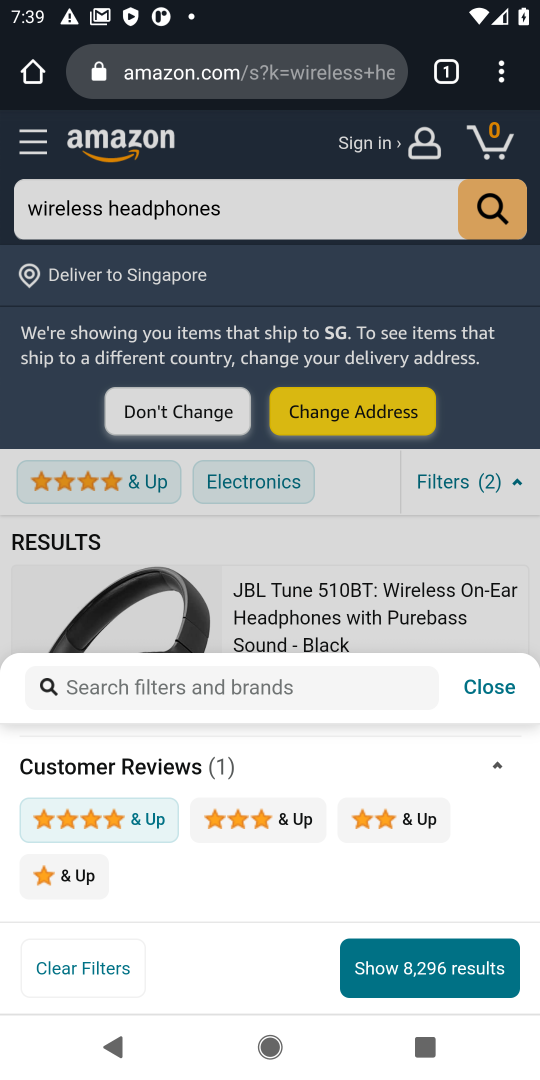
Step 54: click (481, 973)
Your task to perform on an android device: Search for the best rated wireless headphones on Amazon. Image 55: 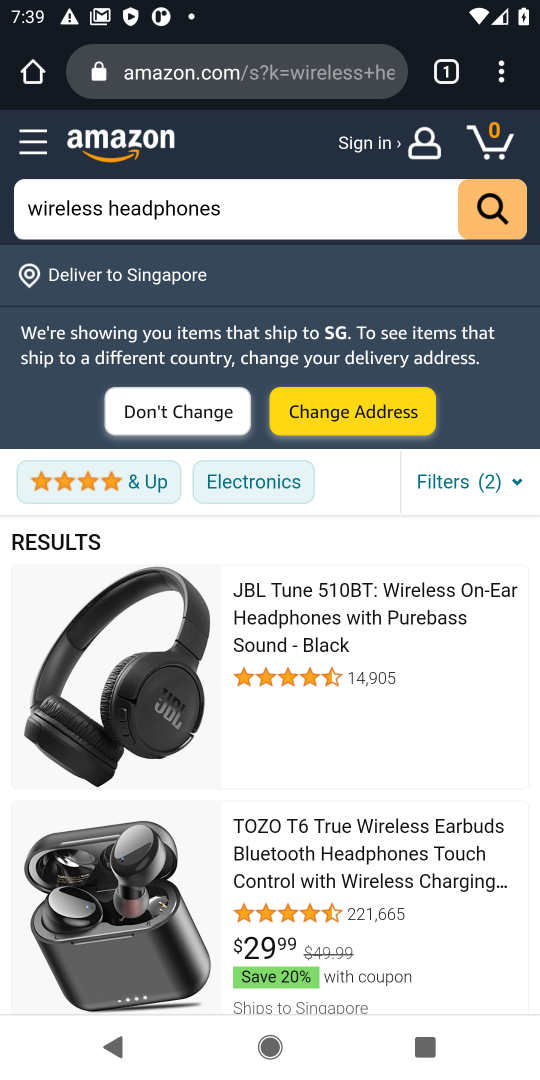
Step 55: task complete